Your task to perform on an android device: Search for "razer nari" on walmart.com, select the first entry, add it to the cart, then select checkout. Image 0: 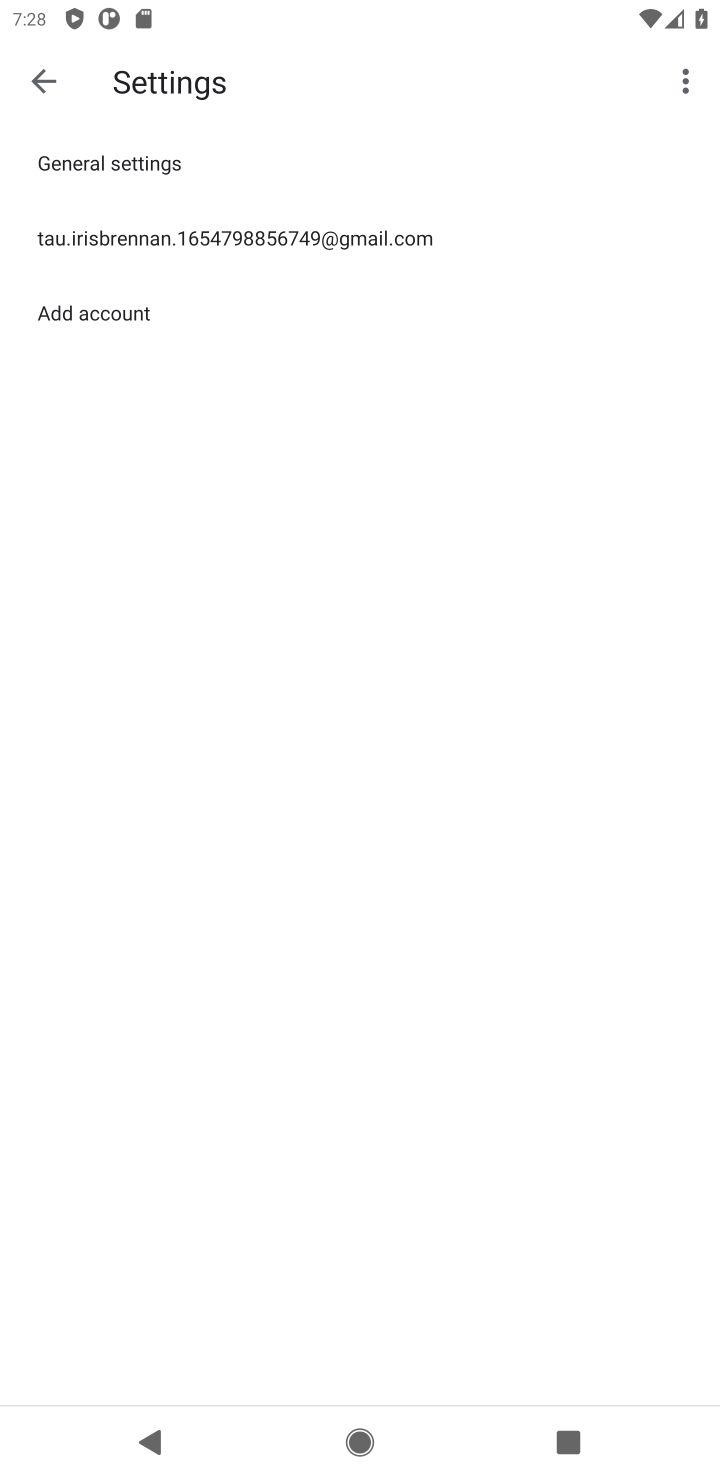
Step 0: press home button
Your task to perform on an android device: Search for "razer nari" on walmart.com, select the first entry, add it to the cart, then select checkout. Image 1: 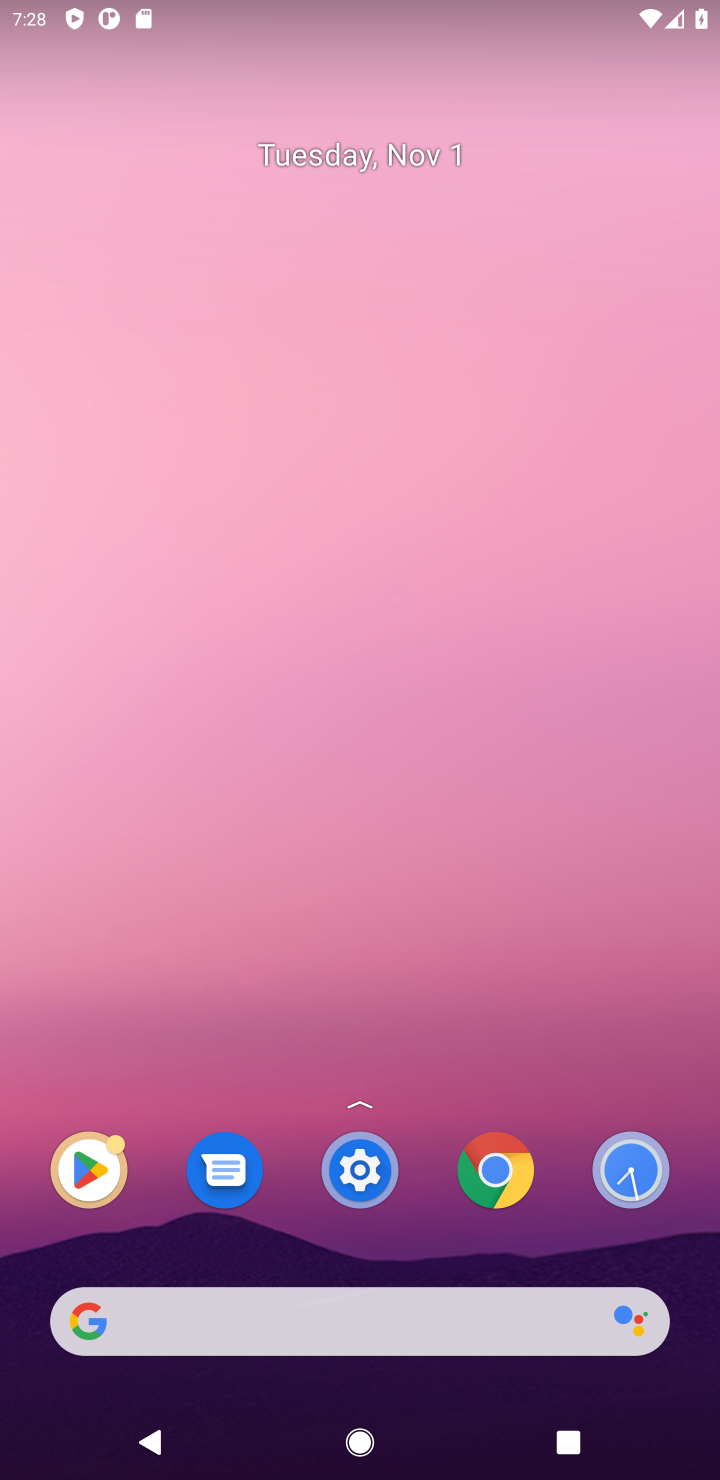
Step 1: click (505, 1192)
Your task to perform on an android device: Search for "razer nari" on walmart.com, select the first entry, add it to the cart, then select checkout. Image 2: 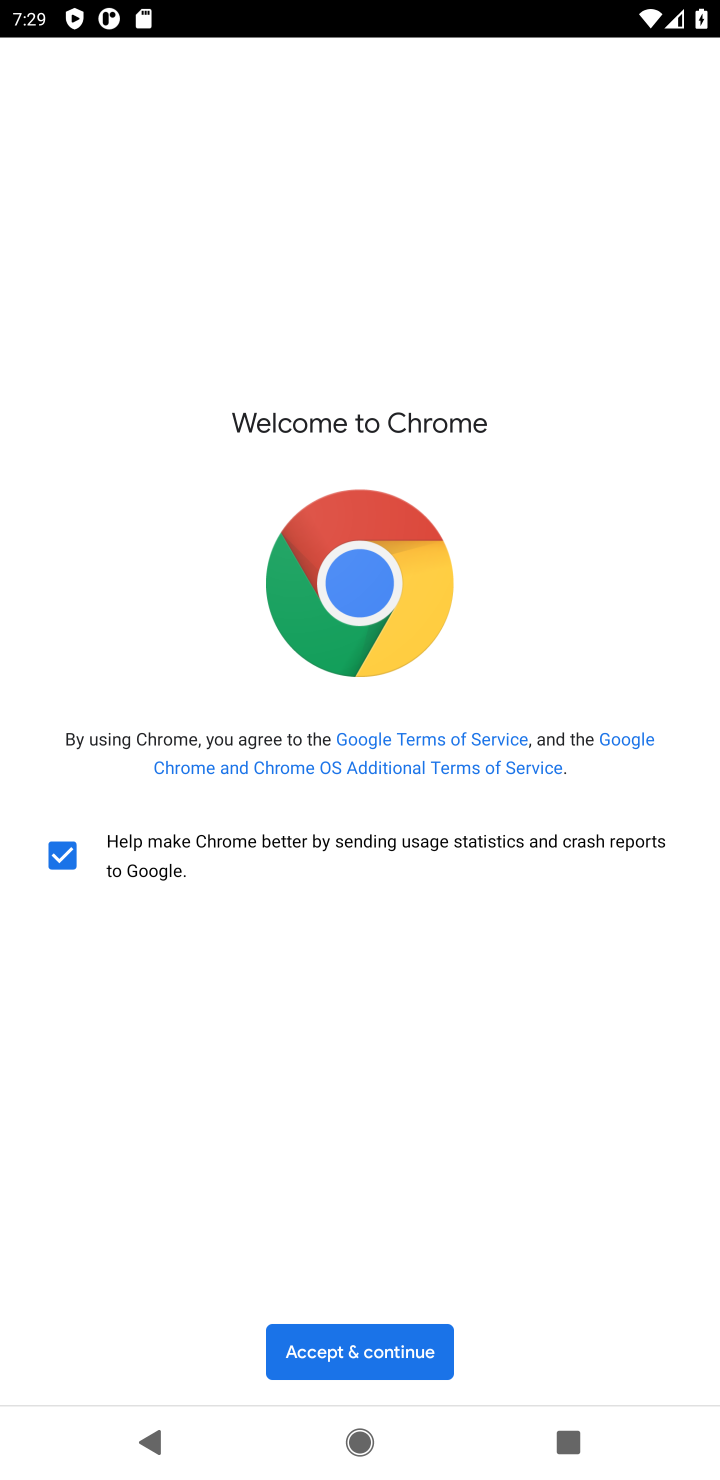
Step 2: click (344, 1351)
Your task to perform on an android device: Search for "razer nari" on walmart.com, select the first entry, add it to the cart, then select checkout. Image 3: 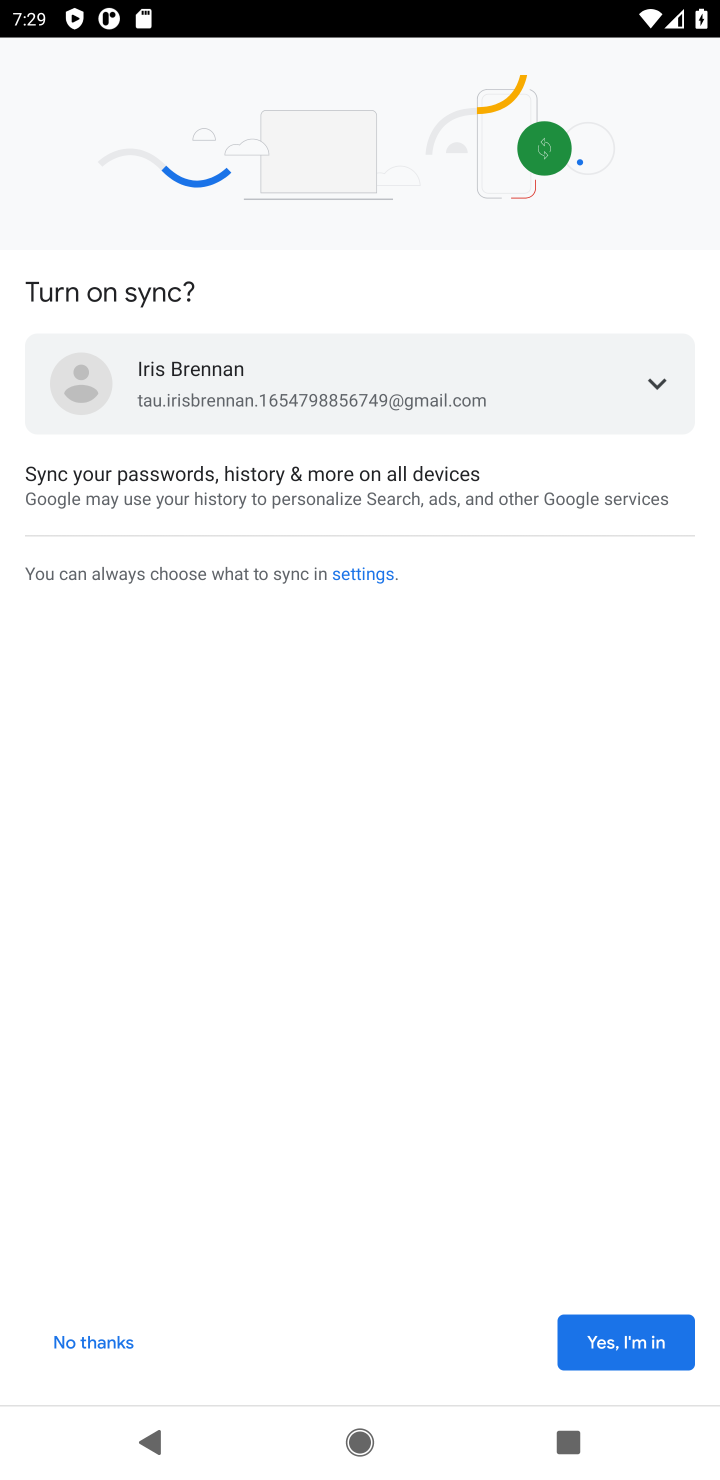
Step 3: click (622, 1349)
Your task to perform on an android device: Search for "razer nari" on walmart.com, select the first entry, add it to the cart, then select checkout. Image 4: 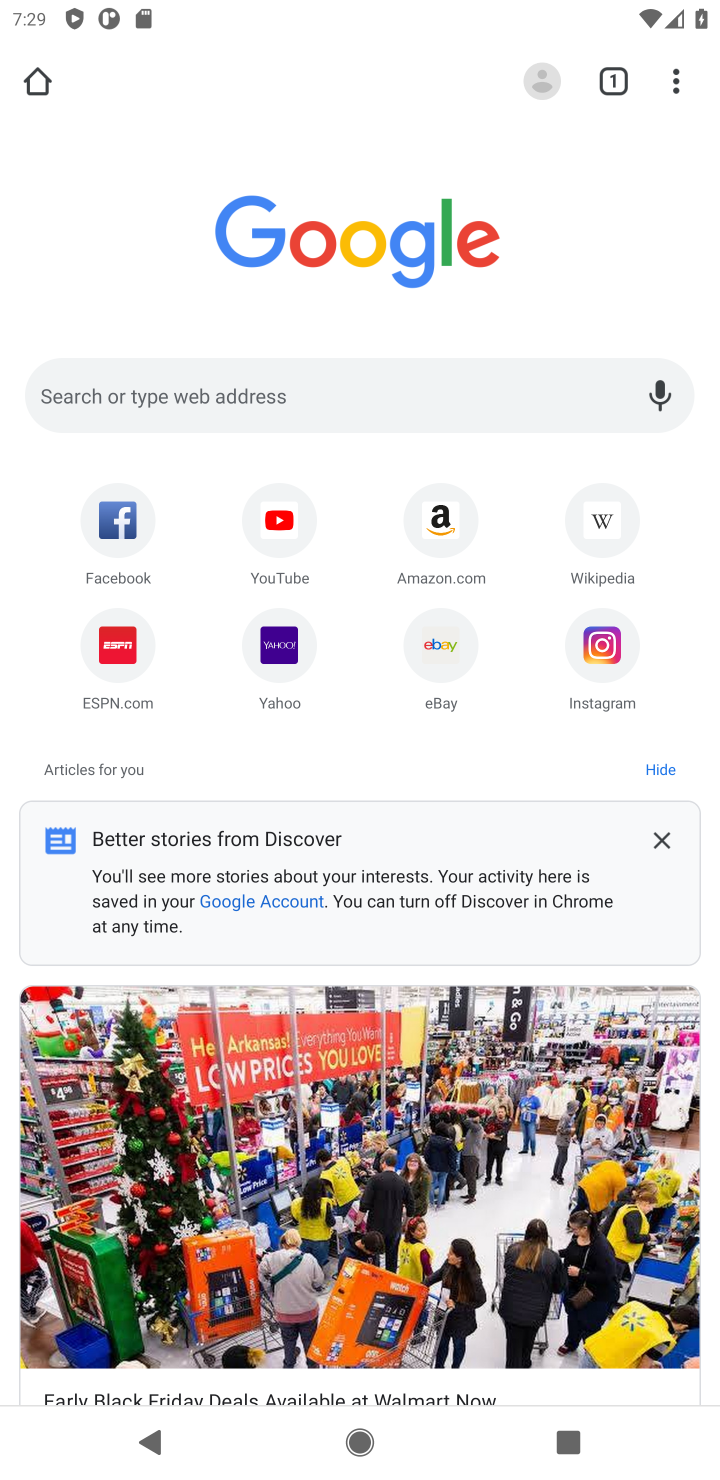
Step 4: click (248, 393)
Your task to perform on an android device: Search for "razer nari" on walmart.com, select the first entry, add it to the cart, then select checkout. Image 5: 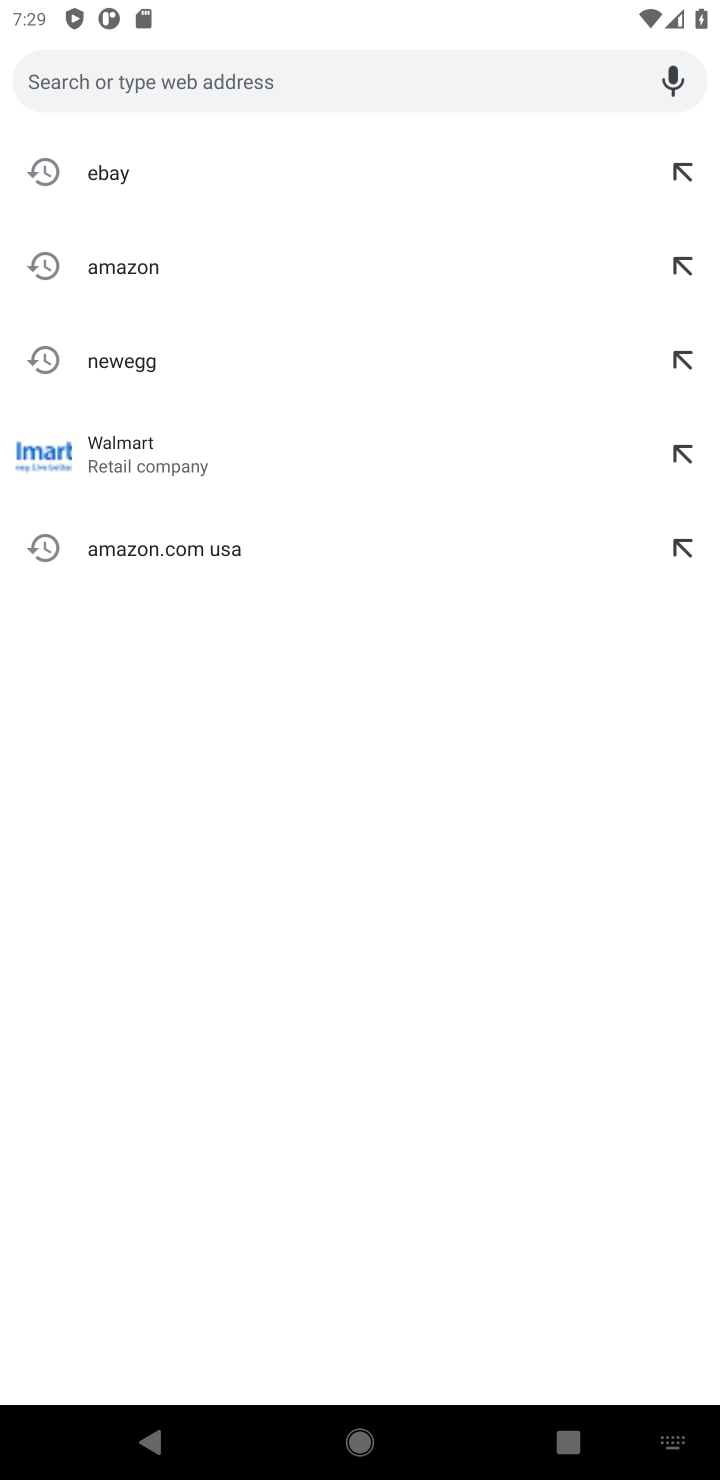
Step 5: type "walmart.com"
Your task to perform on an android device: Search for "razer nari" on walmart.com, select the first entry, add it to the cart, then select checkout. Image 6: 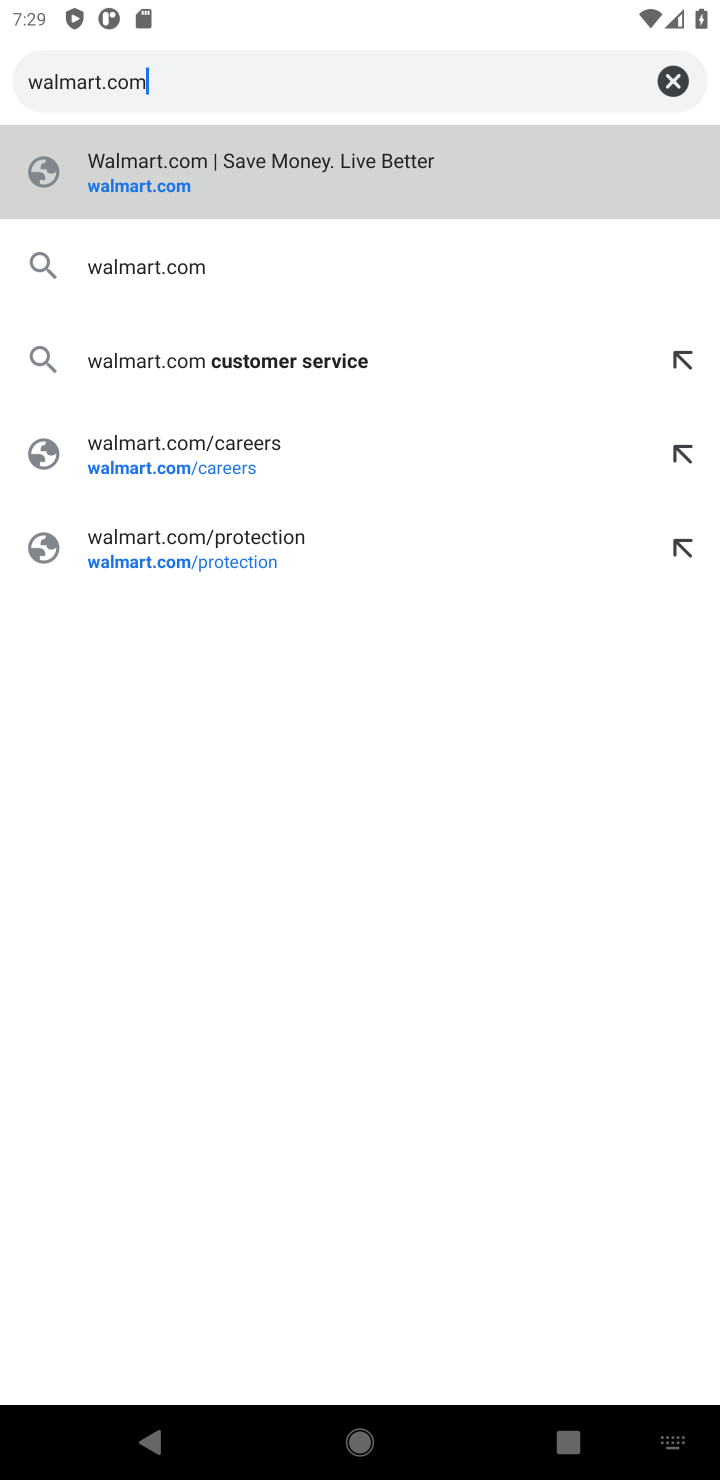
Step 6: press enter
Your task to perform on an android device: Search for "razer nari" on walmart.com, select the first entry, add it to the cart, then select checkout. Image 7: 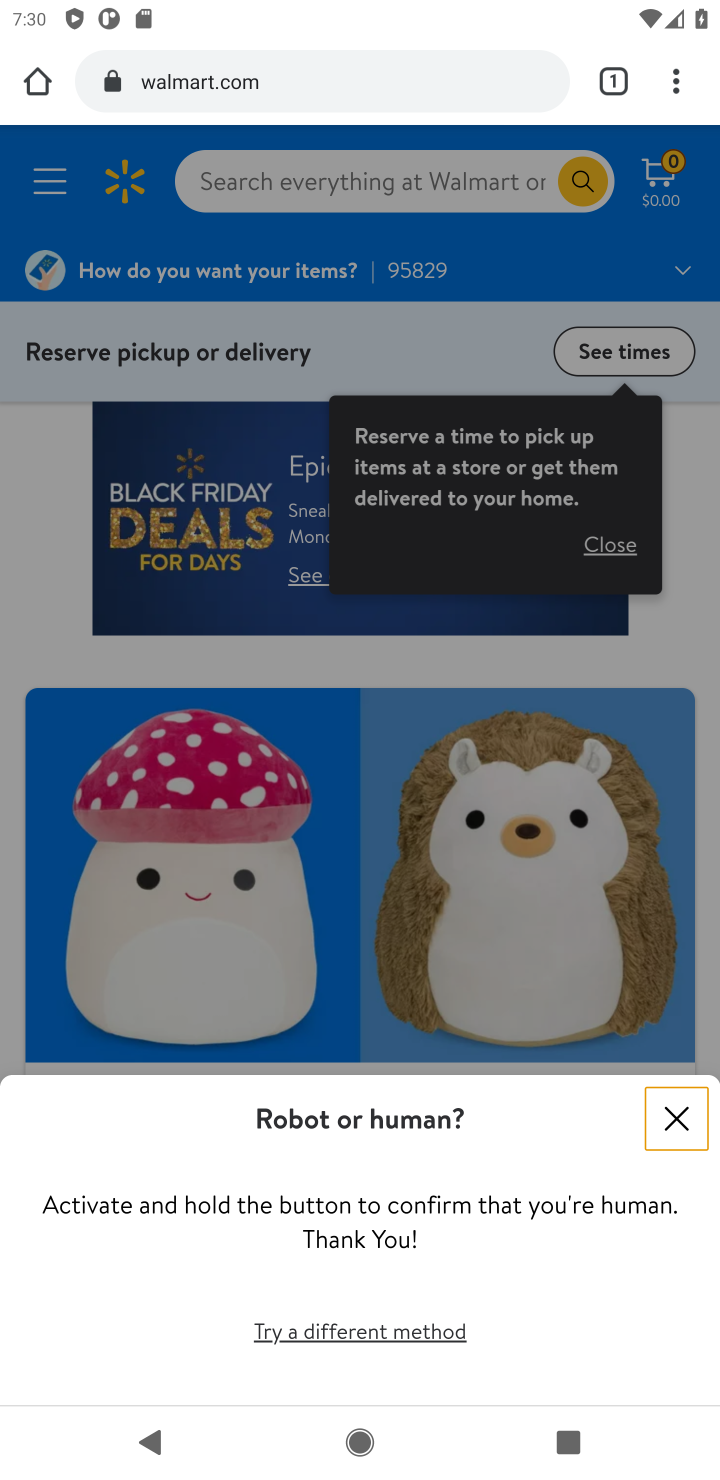
Step 7: click (674, 1144)
Your task to perform on an android device: Search for "razer nari" on walmart.com, select the first entry, add it to the cart, then select checkout. Image 8: 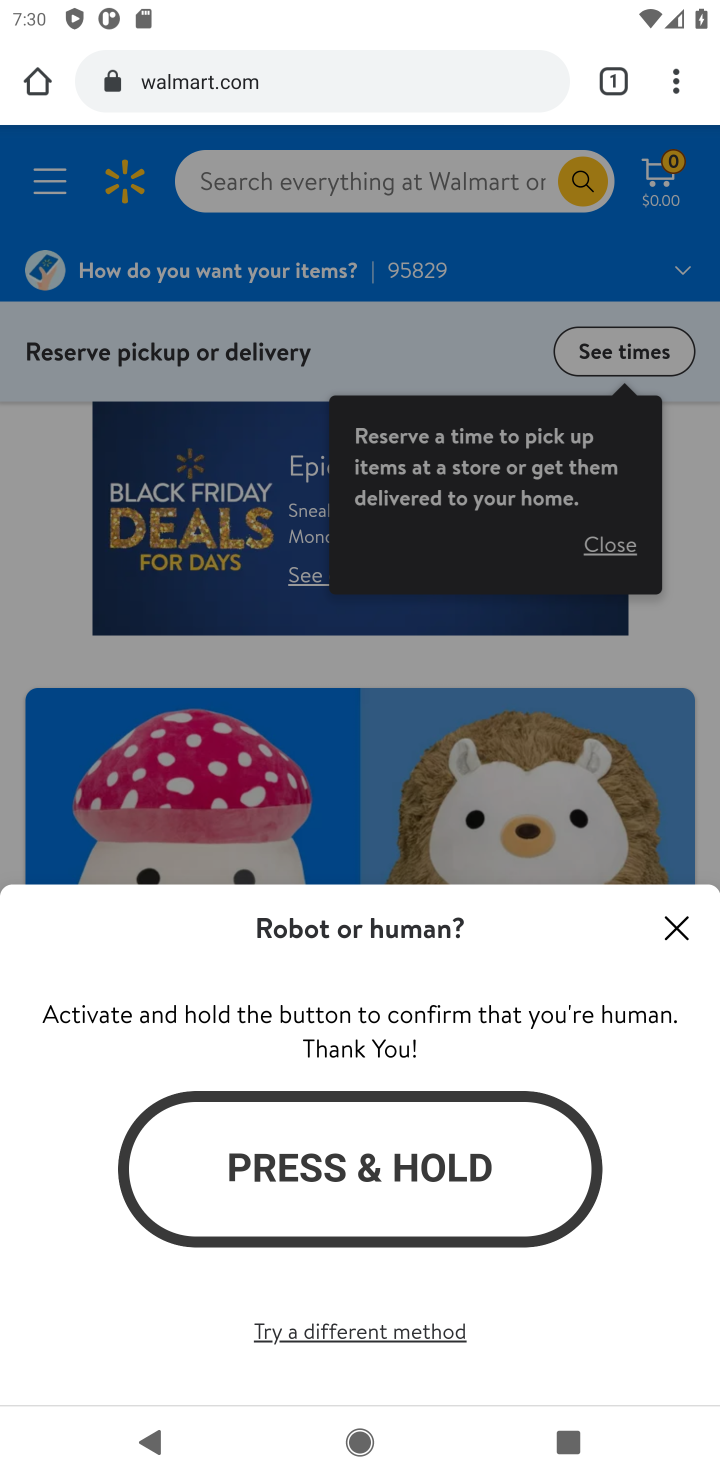
Step 8: click (411, 1165)
Your task to perform on an android device: Search for "razer nari" on walmart.com, select the first entry, add it to the cart, then select checkout. Image 9: 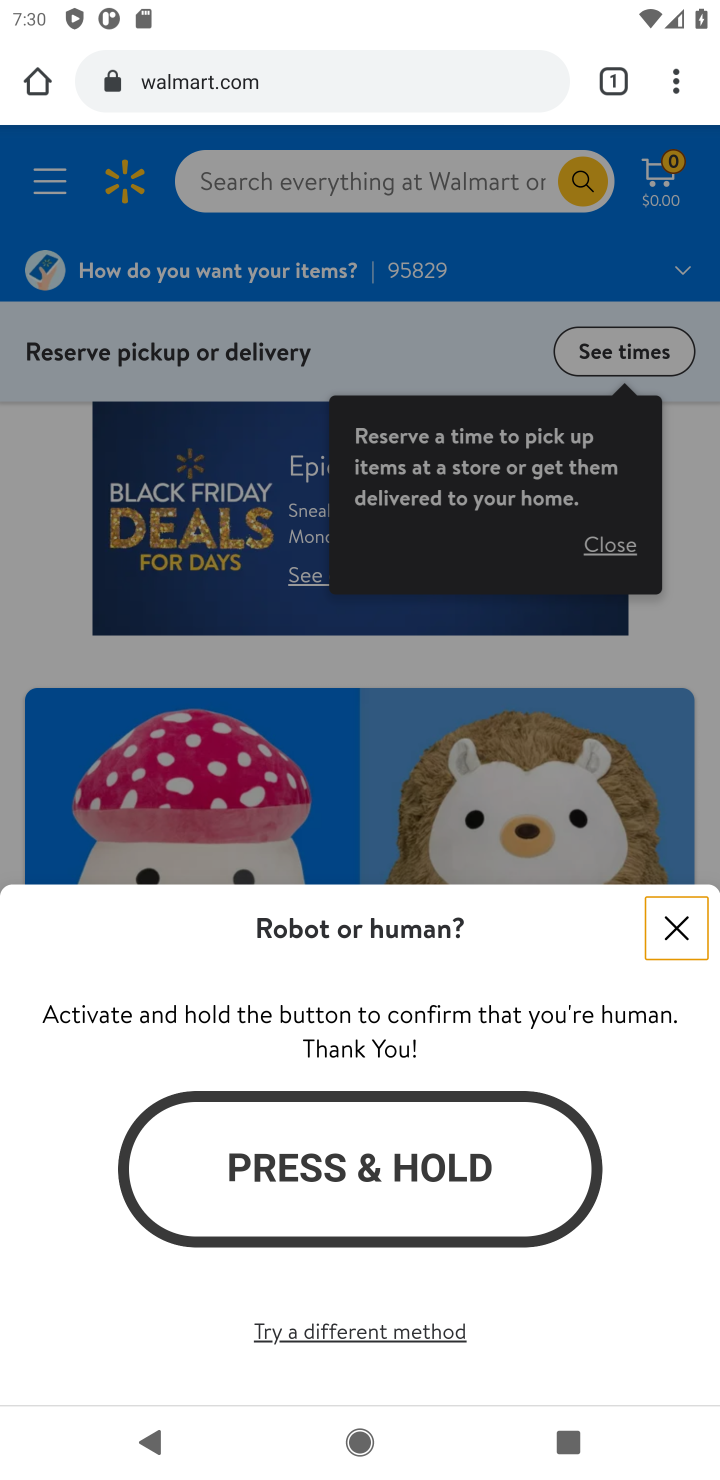
Step 9: click (380, 1337)
Your task to perform on an android device: Search for "razer nari" on walmart.com, select the first entry, add it to the cart, then select checkout. Image 10: 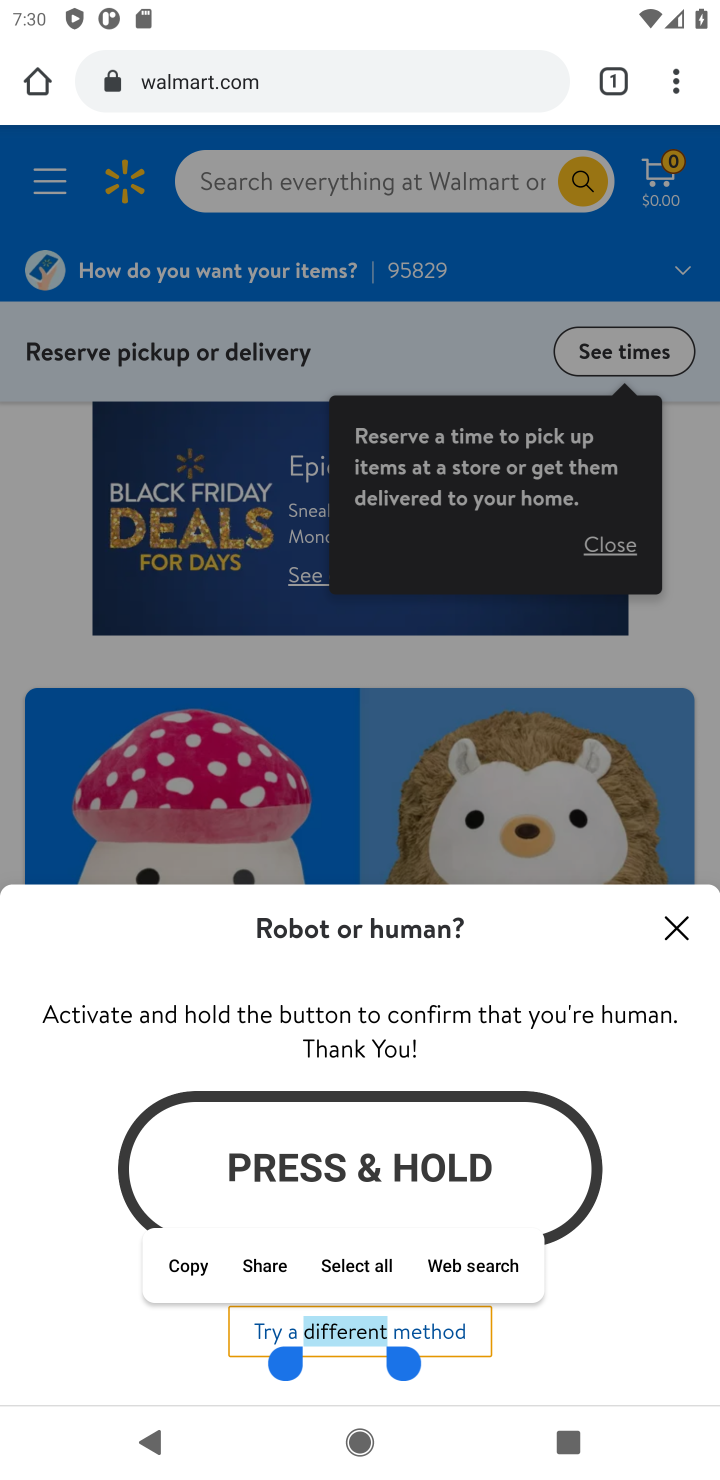
Step 10: click (682, 923)
Your task to perform on an android device: Search for "razer nari" on walmart.com, select the first entry, add it to the cart, then select checkout. Image 11: 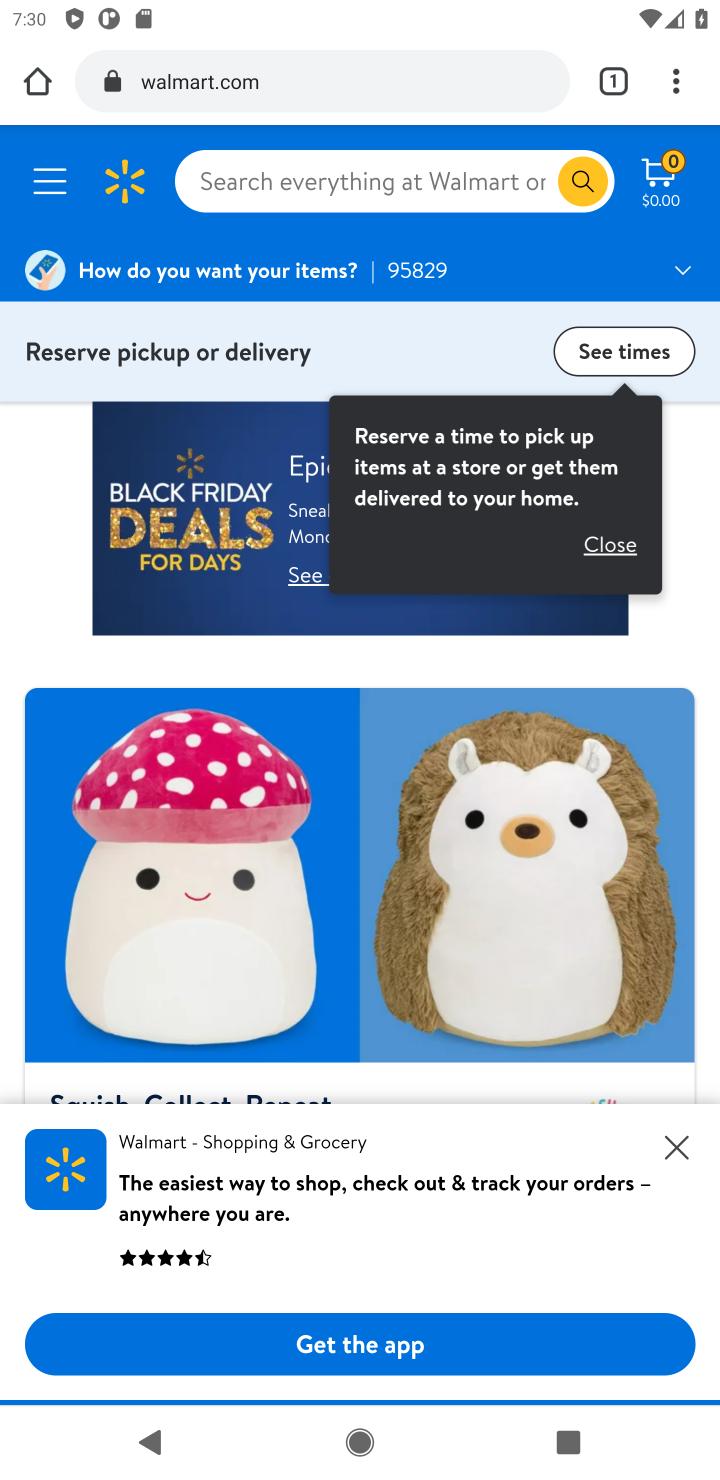
Step 11: click (357, 173)
Your task to perform on an android device: Search for "razer nari" on walmart.com, select the first entry, add it to the cart, then select checkout. Image 12: 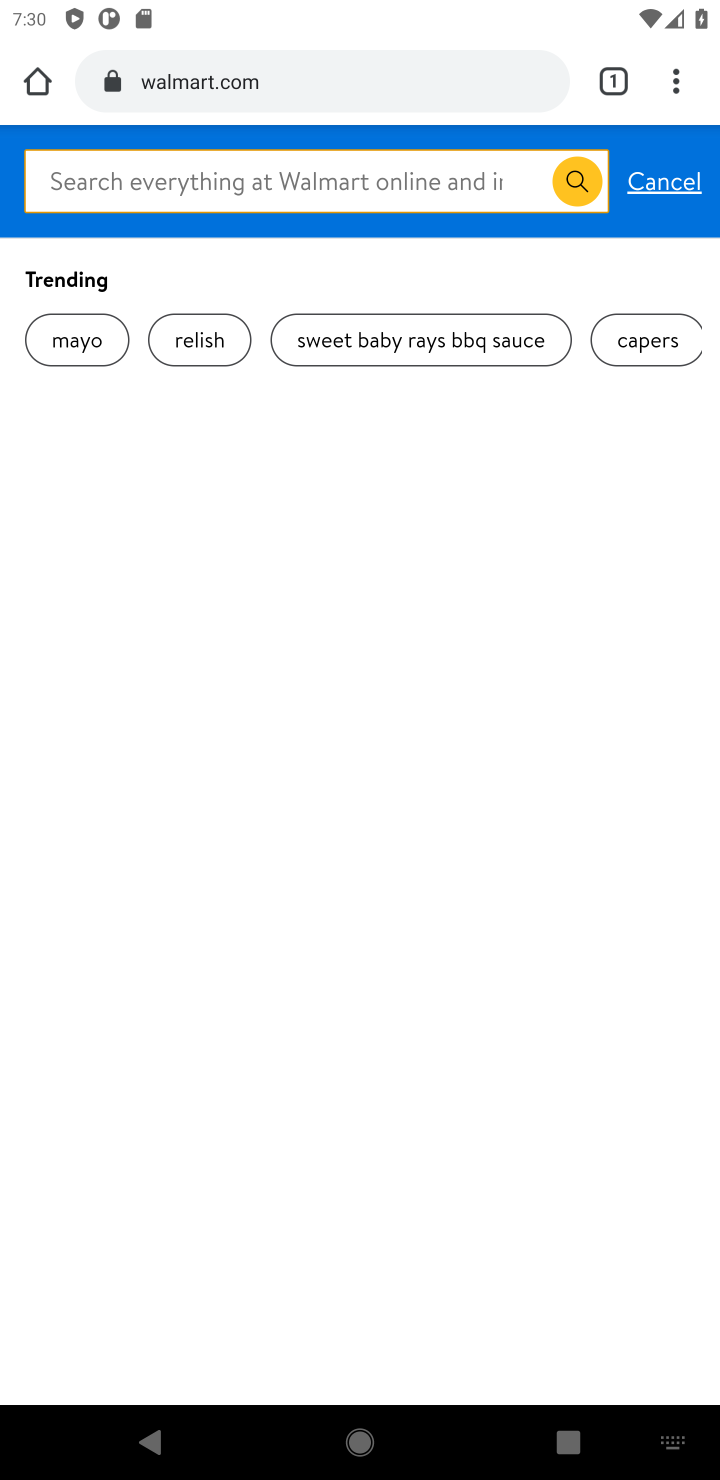
Step 12: type "razer nari"
Your task to perform on an android device: Search for "razer nari" on walmart.com, select the first entry, add it to the cart, then select checkout. Image 13: 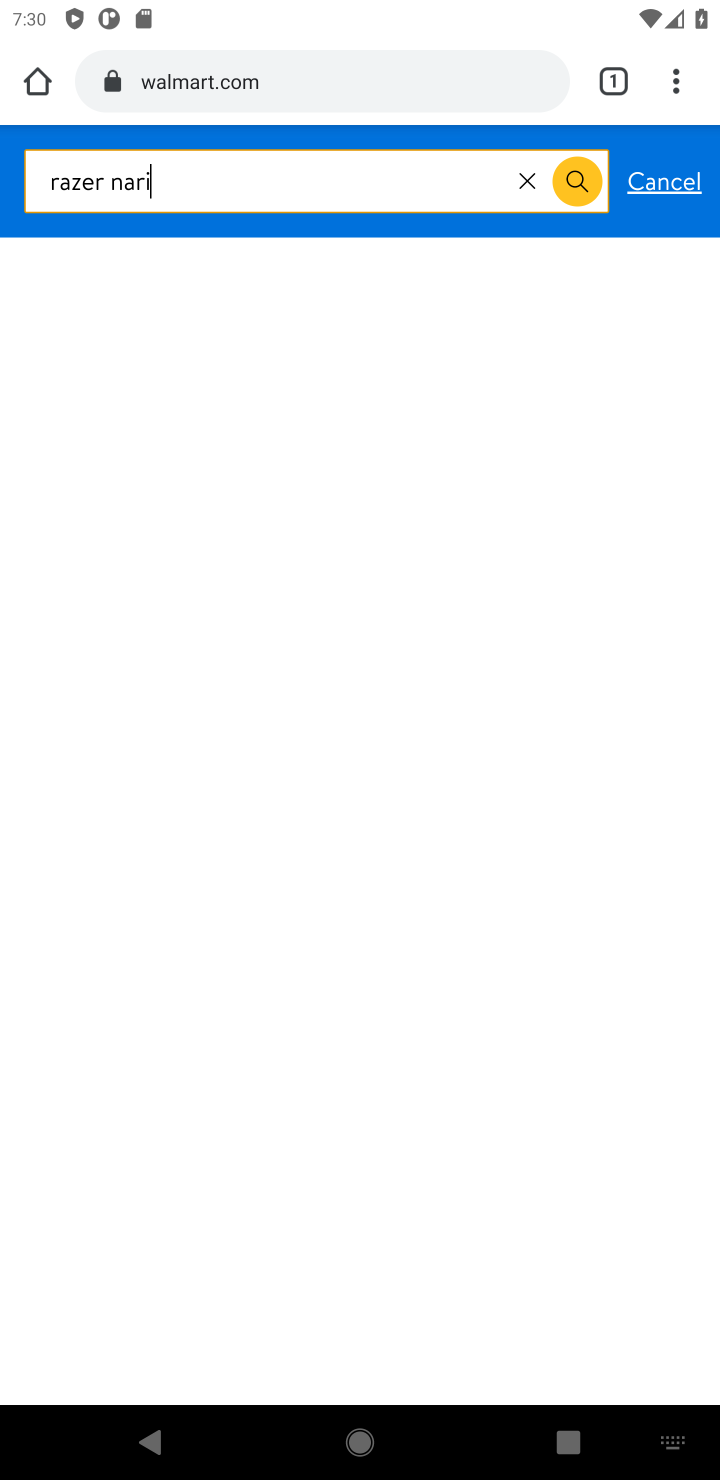
Step 13: type ""
Your task to perform on an android device: Search for "razer nari" on walmart.com, select the first entry, add it to the cart, then select checkout. Image 14: 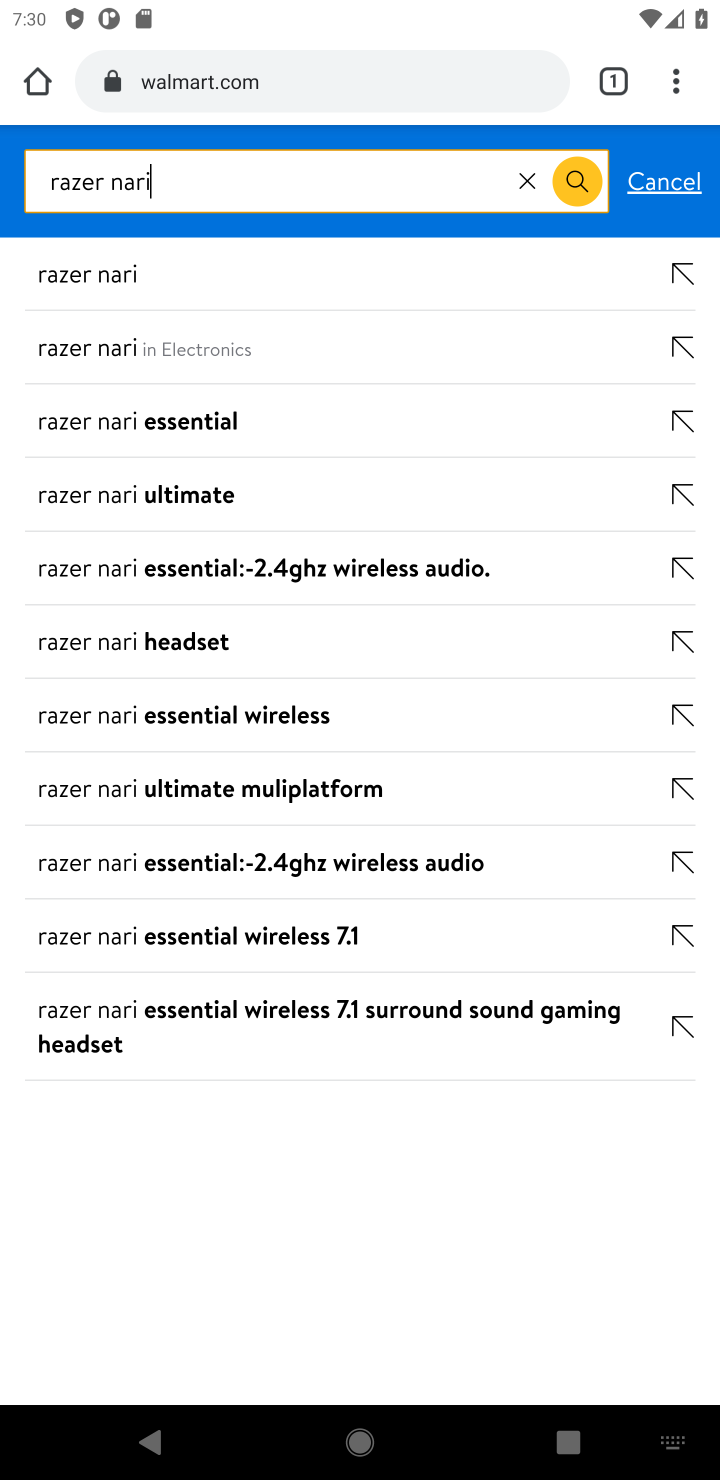
Step 14: press enter
Your task to perform on an android device: Search for "razer nari" on walmart.com, select the first entry, add it to the cart, then select checkout. Image 15: 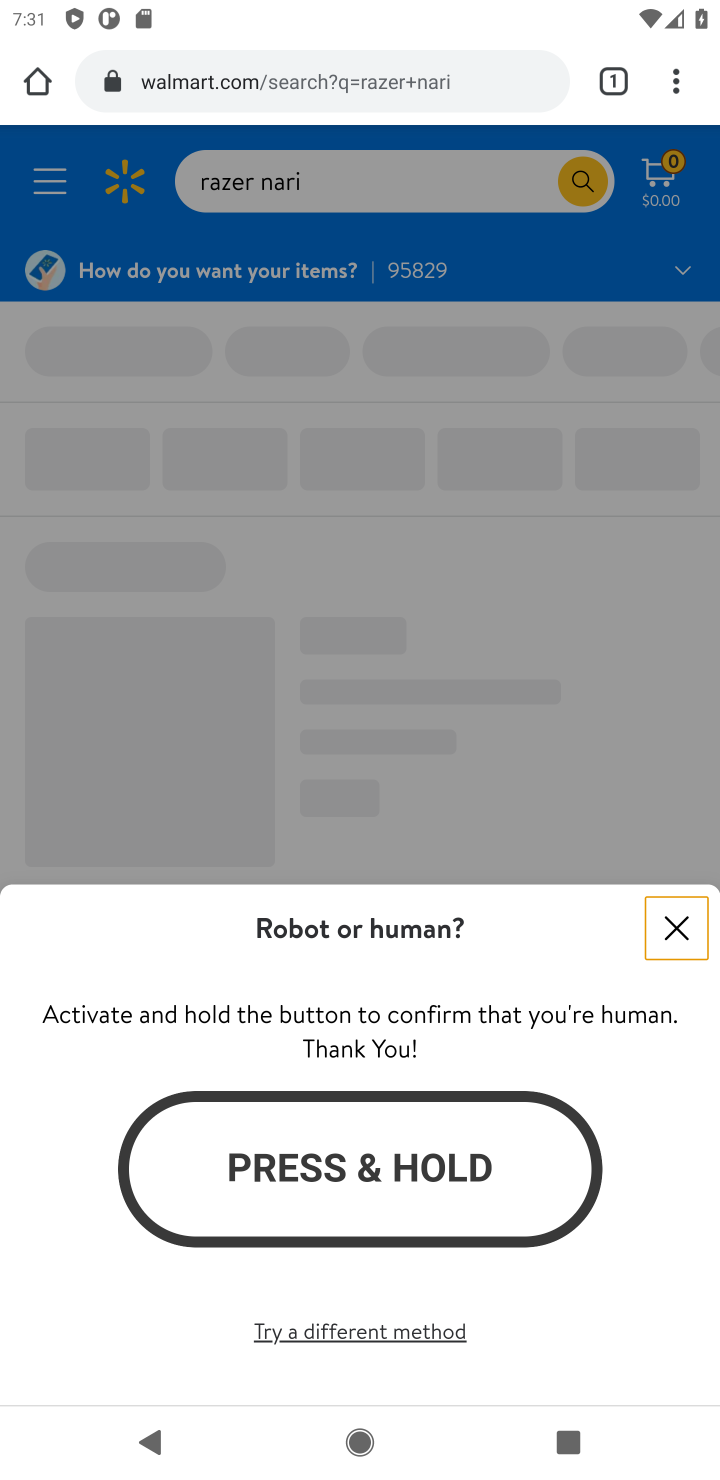
Step 15: click (669, 932)
Your task to perform on an android device: Search for "razer nari" on walmart.com, select the first entry, add it to the cart, then select checkout. Image 16: 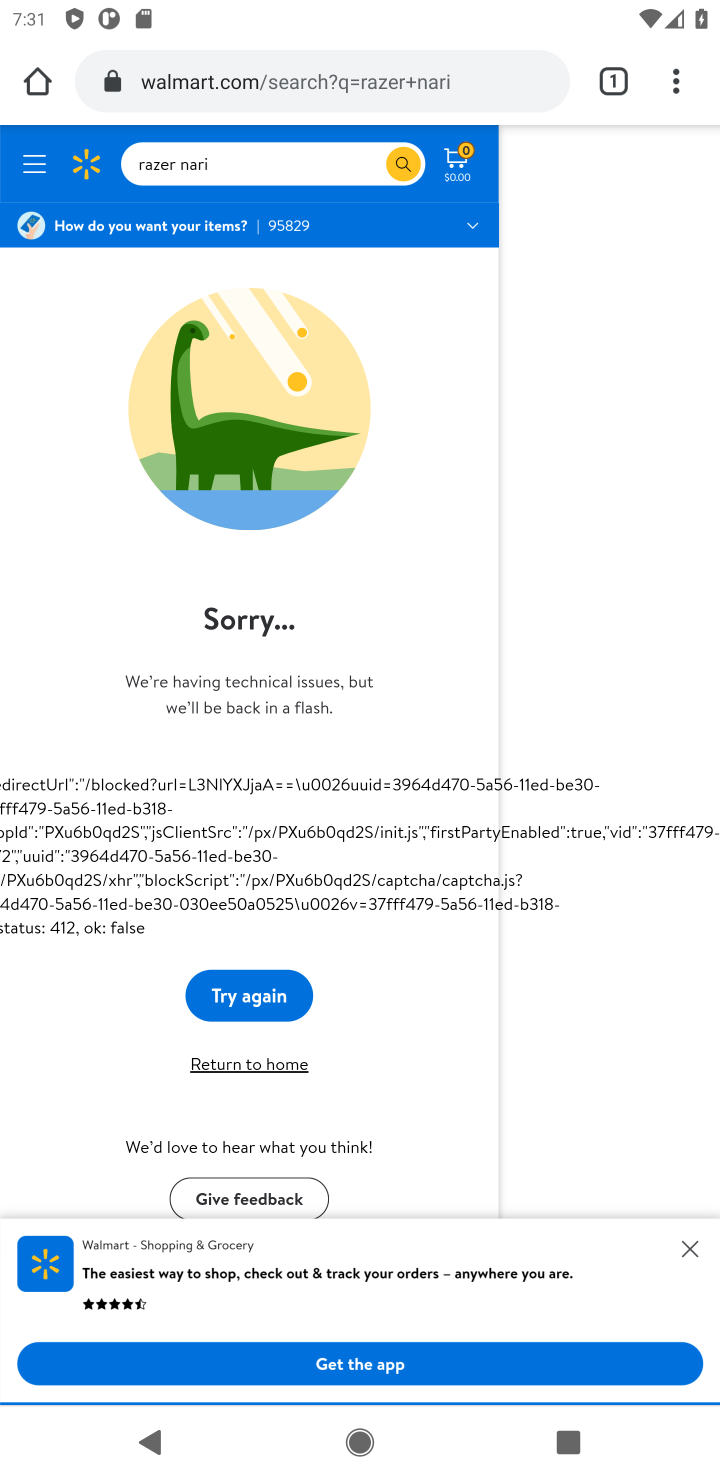
Step 16: press home button
Your task to perform on an android device: Search for "razer nari" on walmart.com, select the first entry, add it to the cart, then select checkout. Image 17: 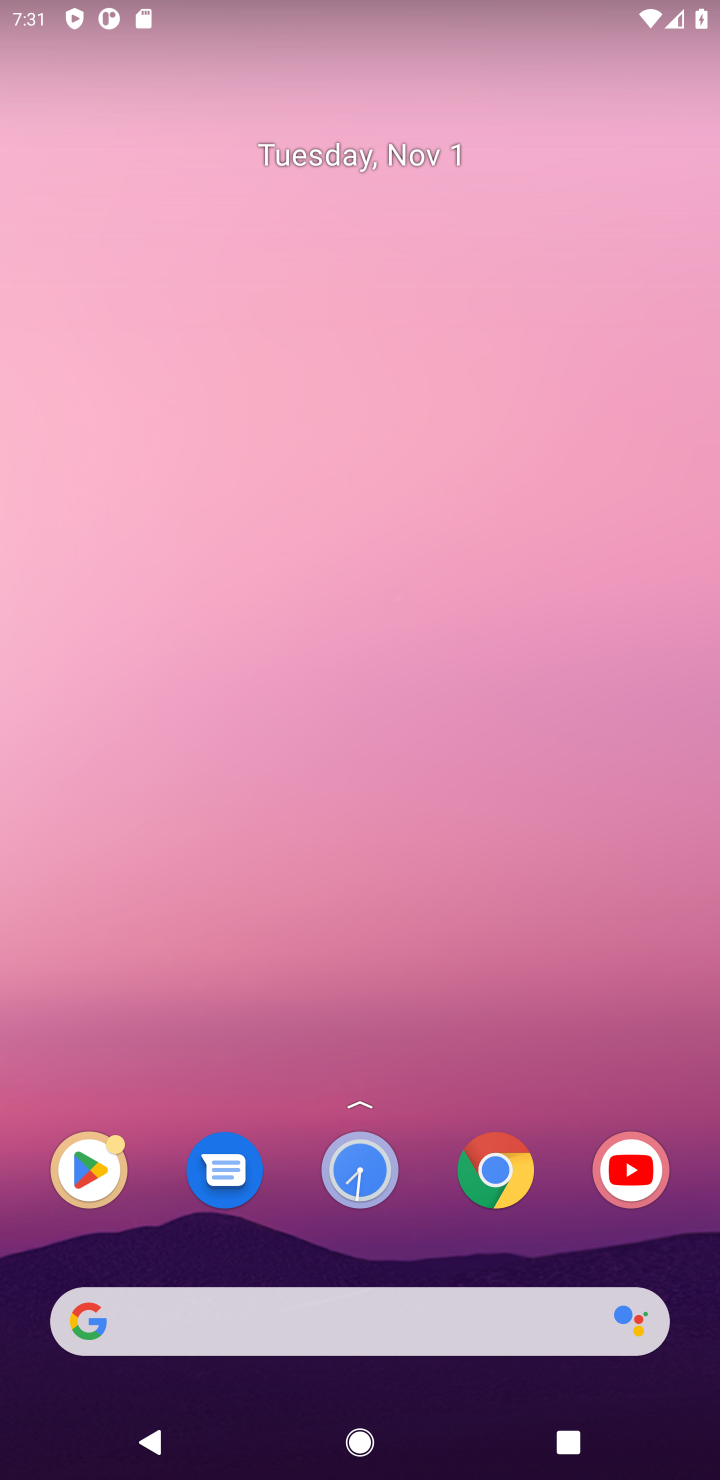
Step 17: click (493, 1167)
Your task to perform on an android device: Search for "razer nari" on walmart.com, select the first entry, add it to the cart, then select checkout. Image 18: 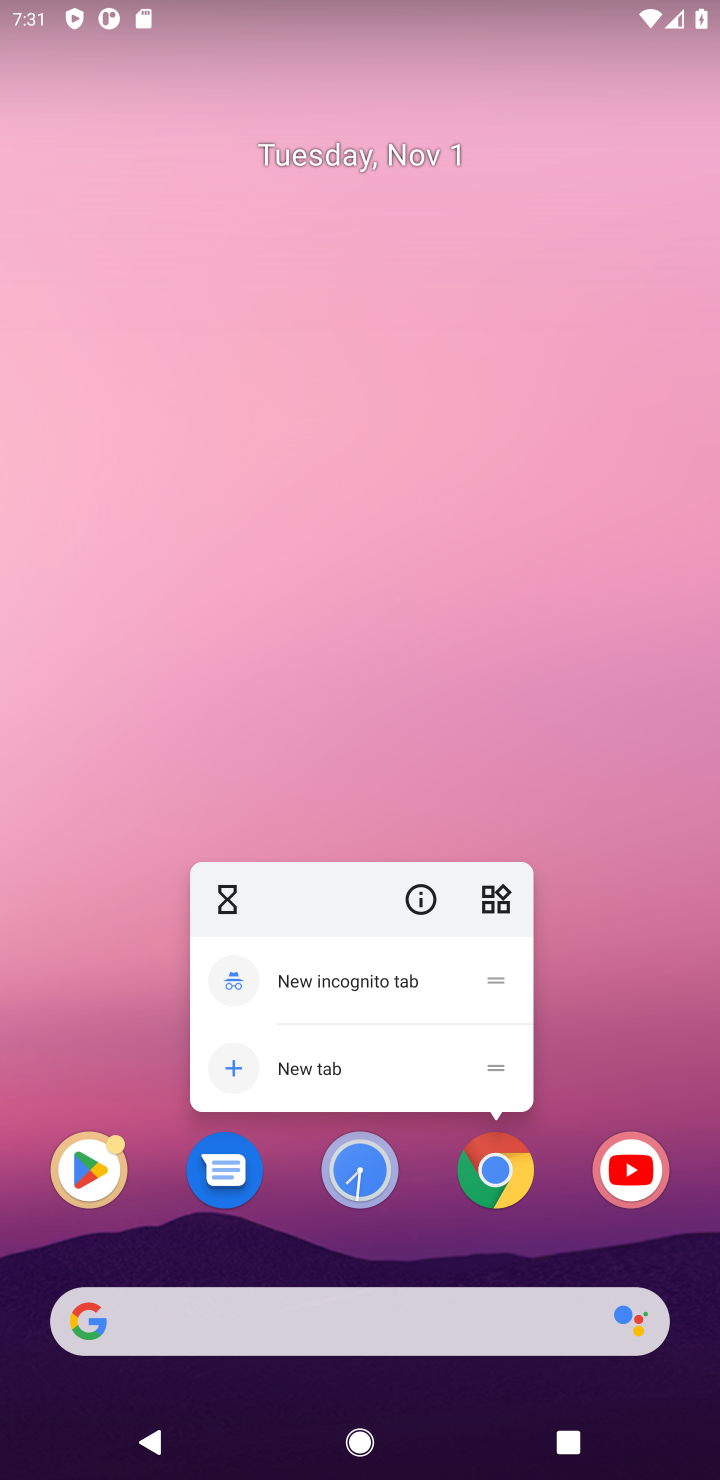
Step 18: click (515, 1198)
Your task to perform on an android device: Search for "razer nari" on walmart.com, select the first entry, add it to the cart, then select checkout. Image 19: 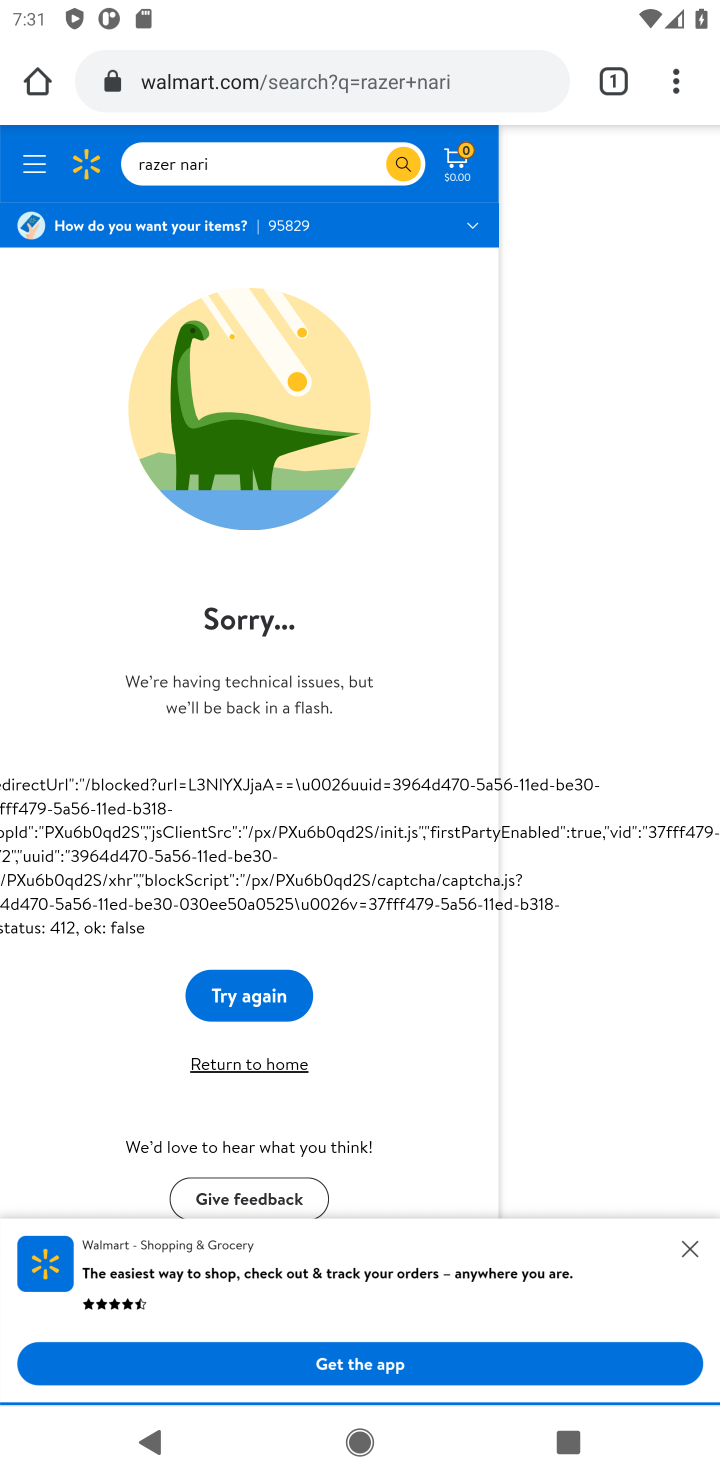
Step 19: click (331, 61)
Your task to perform on an android device: Search for "razer nari" on walmart.com, select the first entry, add it to the cart, then select checkout. Image 20: 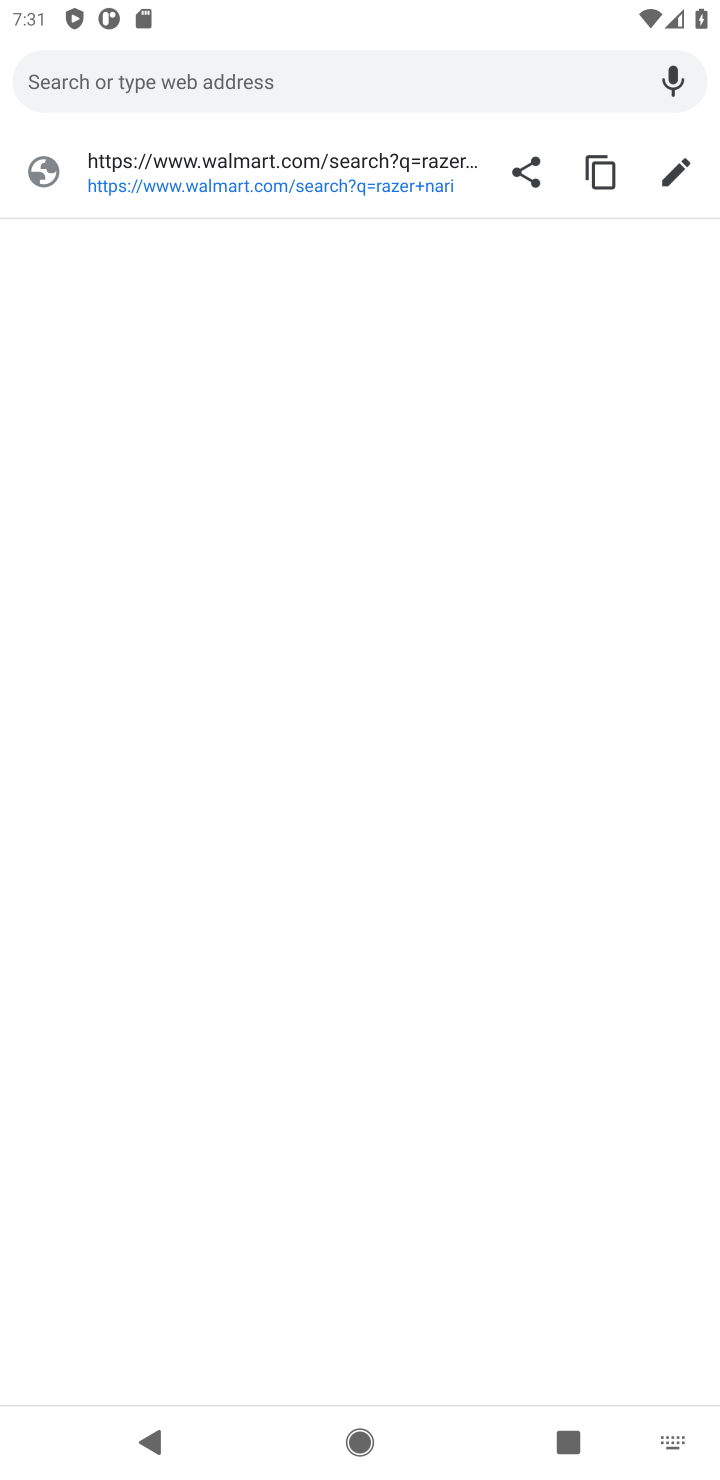
Step 20: click (340, 70)
Your task to perform on an android device: Search for "razer nari" on walmart.com, select the first entry, add it to the cart, then select checkout. Image 21: 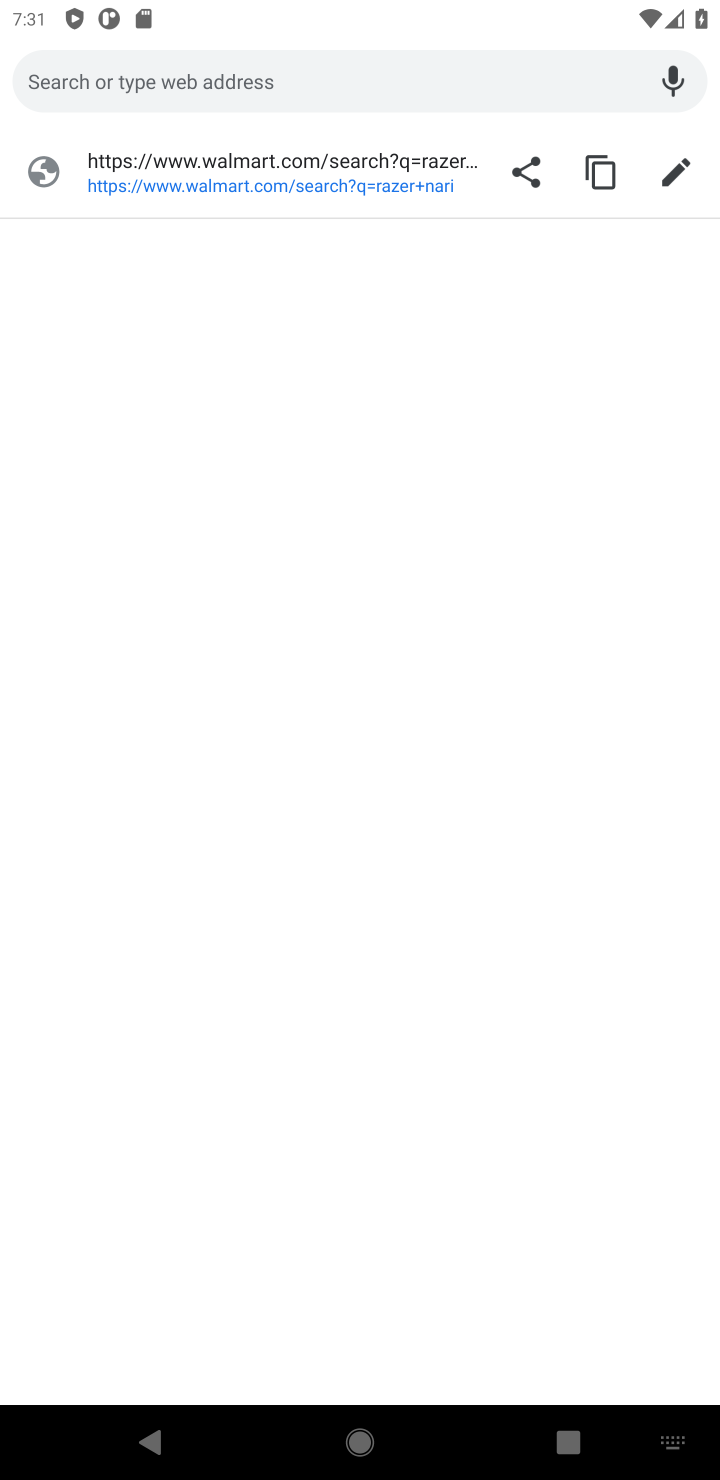
Step 21: type "walmart.com"
Your task to perform on an android device: Search for "razer nari" on walmart.com, select the first entry, add it to the cart, then select checkout. Image 22: 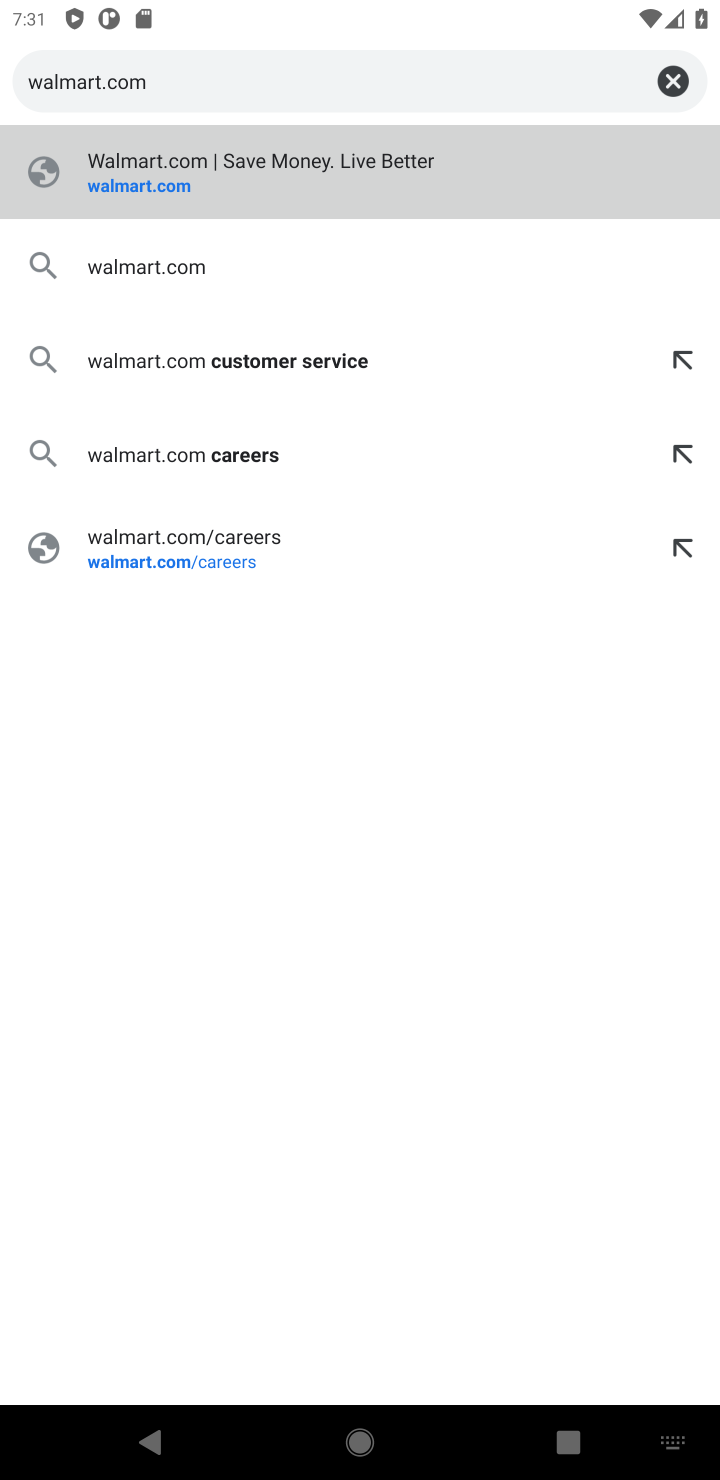
Step 22: press enter
Your task to perform on an android device: Search for "razer nari" on walmart.com, select the first entry, add it to the cart, then select checkout. Image 23: 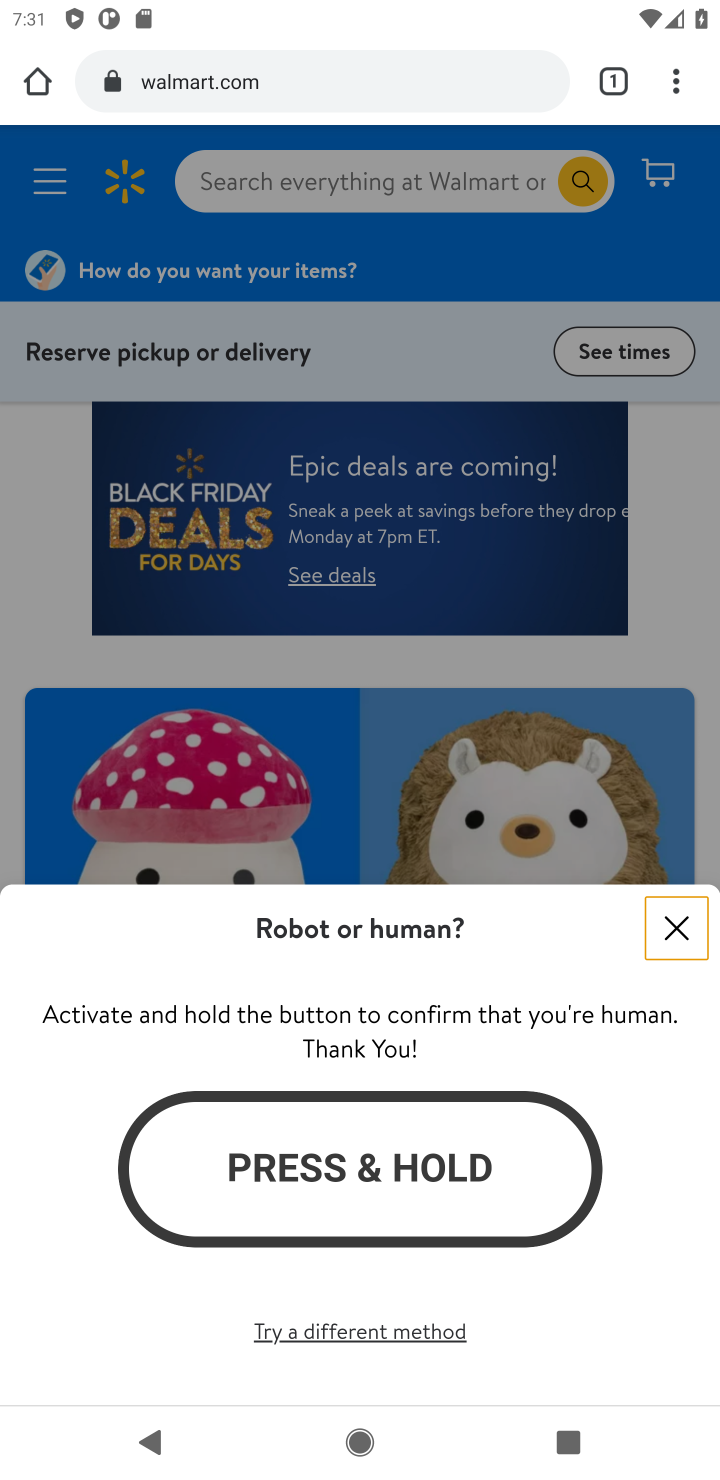
Step 23: click (280, 1331)
Your task to perform on an android device: Search for "razer nari" on walmart.com, select the first entry, add it to the cart, then select checkout. Image 24: 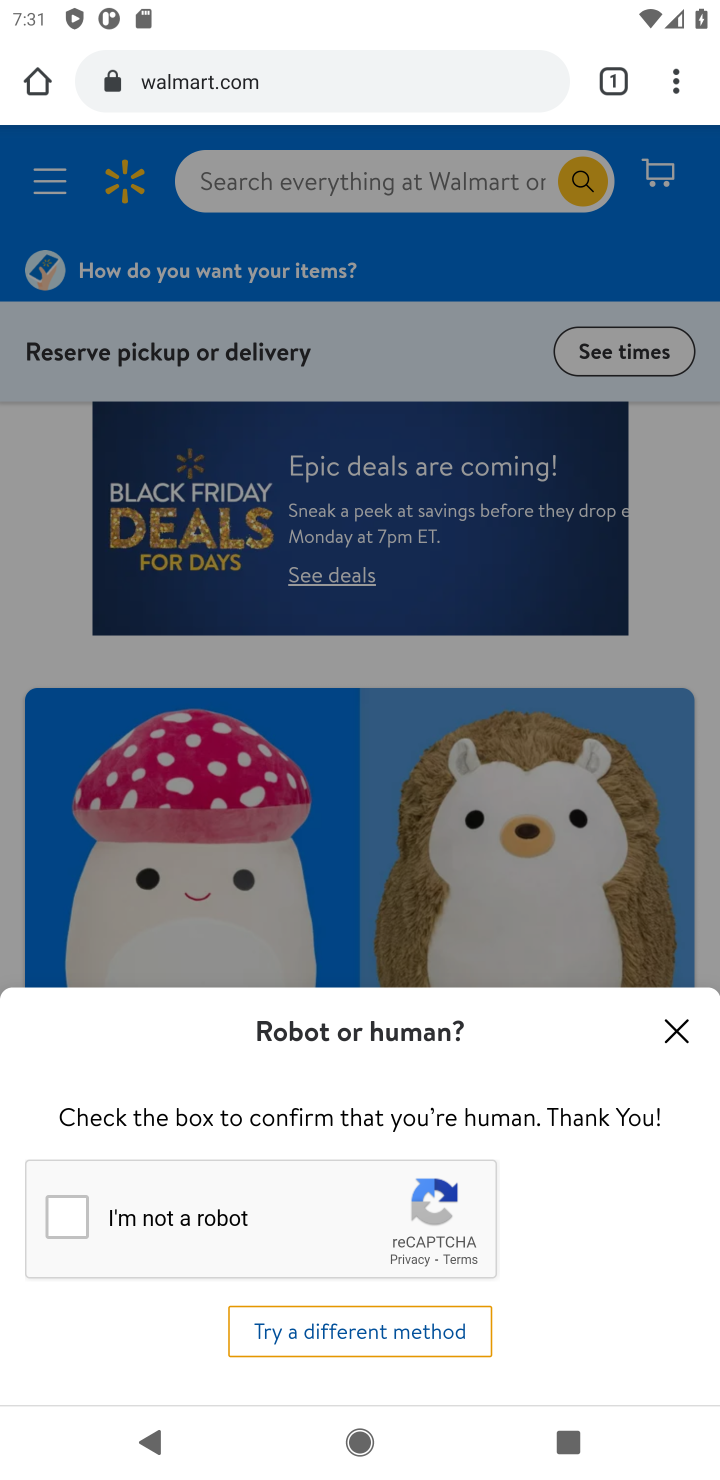
Step 24: click (73, 1226)
Your task to perform on an android device: Search for "razer nari" on walmart.com, select the first entry, add it to the cart, then select checkout. Image 25: 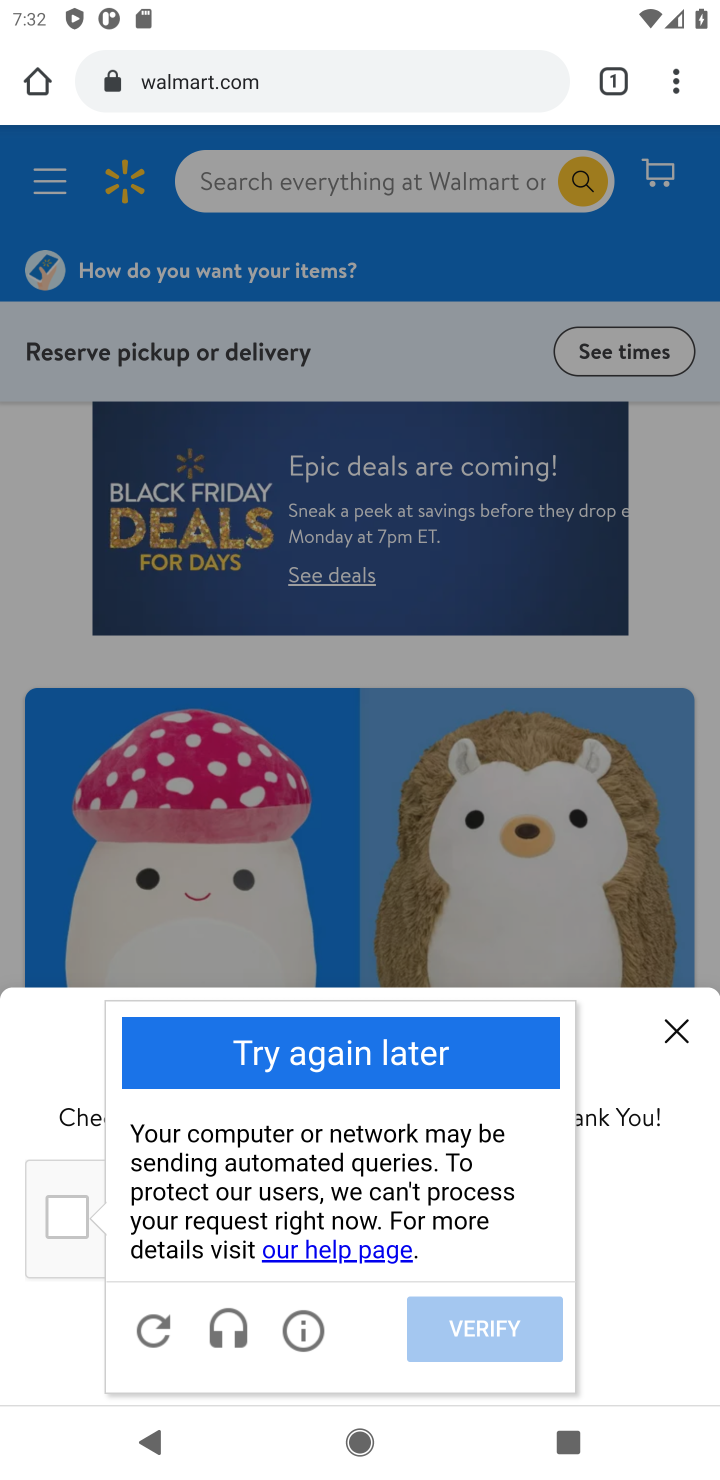
Step 25: click (175, 1341)
Your task to perform on an android device: Search for "razer nari" on walmart.com, select the first entry, add it to the cart, then select checkout. Image 26: 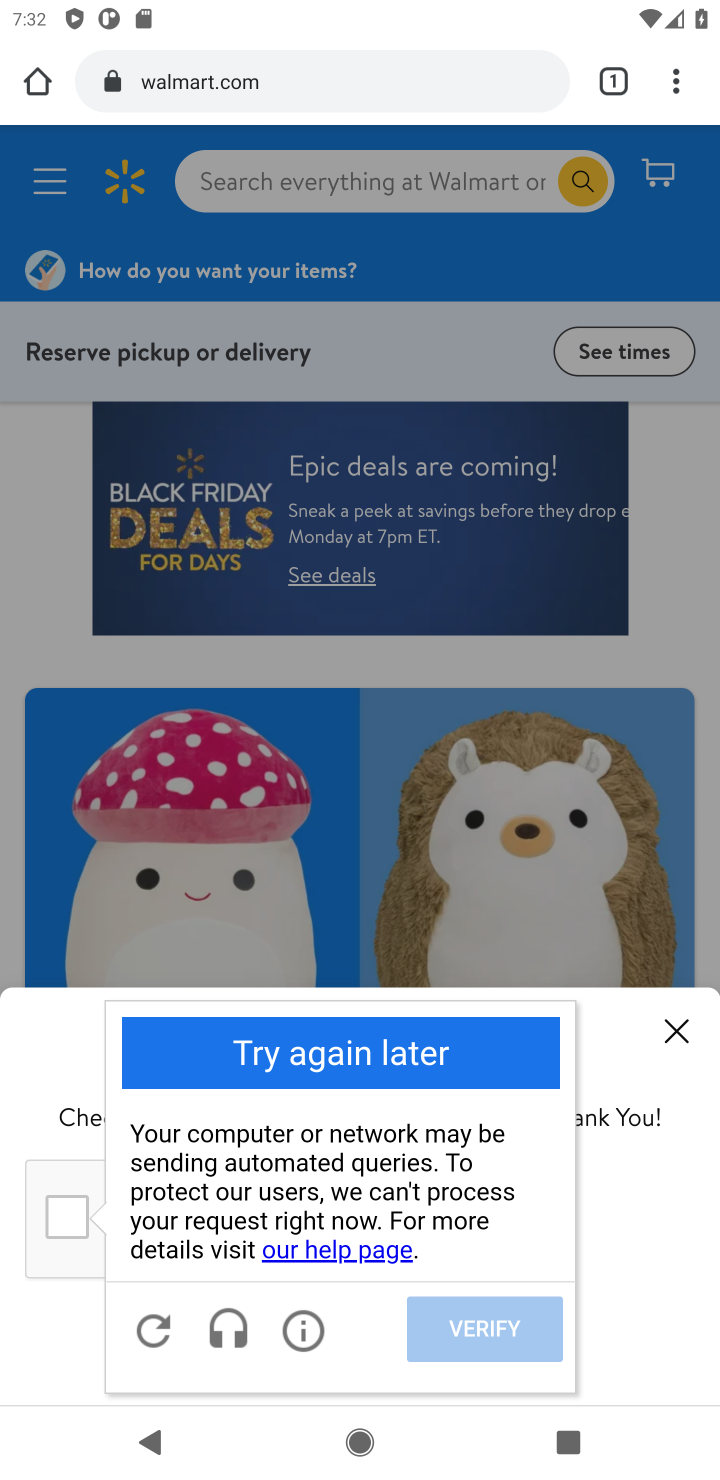
Step 26: click (149, 1344)
Your task to perform on an android device: Search for "razer nari" on walmart.com, select the first entry, add it to the cart, then select checkout. Image 27: 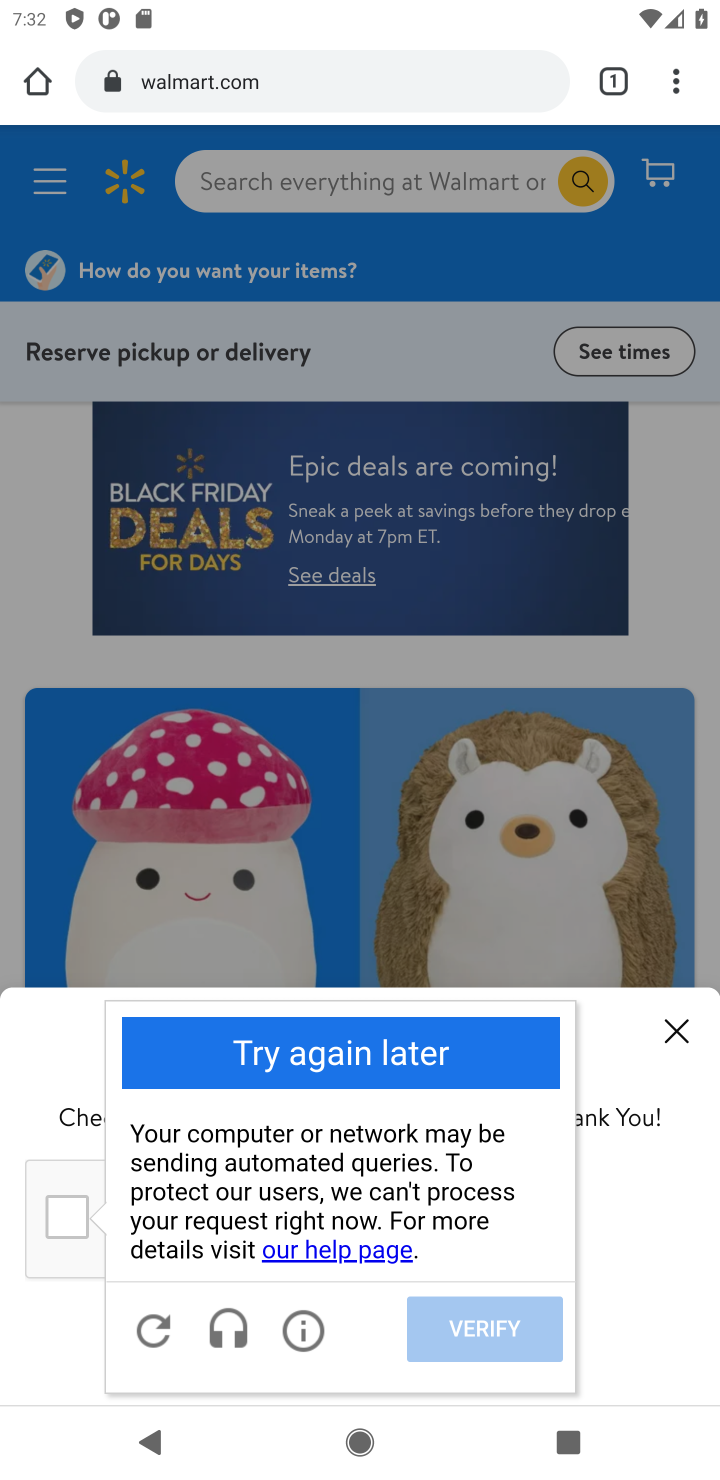
Step 27: click (667, 1072)
Your task to perform on an android device: Search for "razer nari" on walmart.com, select the first entry, add it to the cart, then select checkout. Image 28: 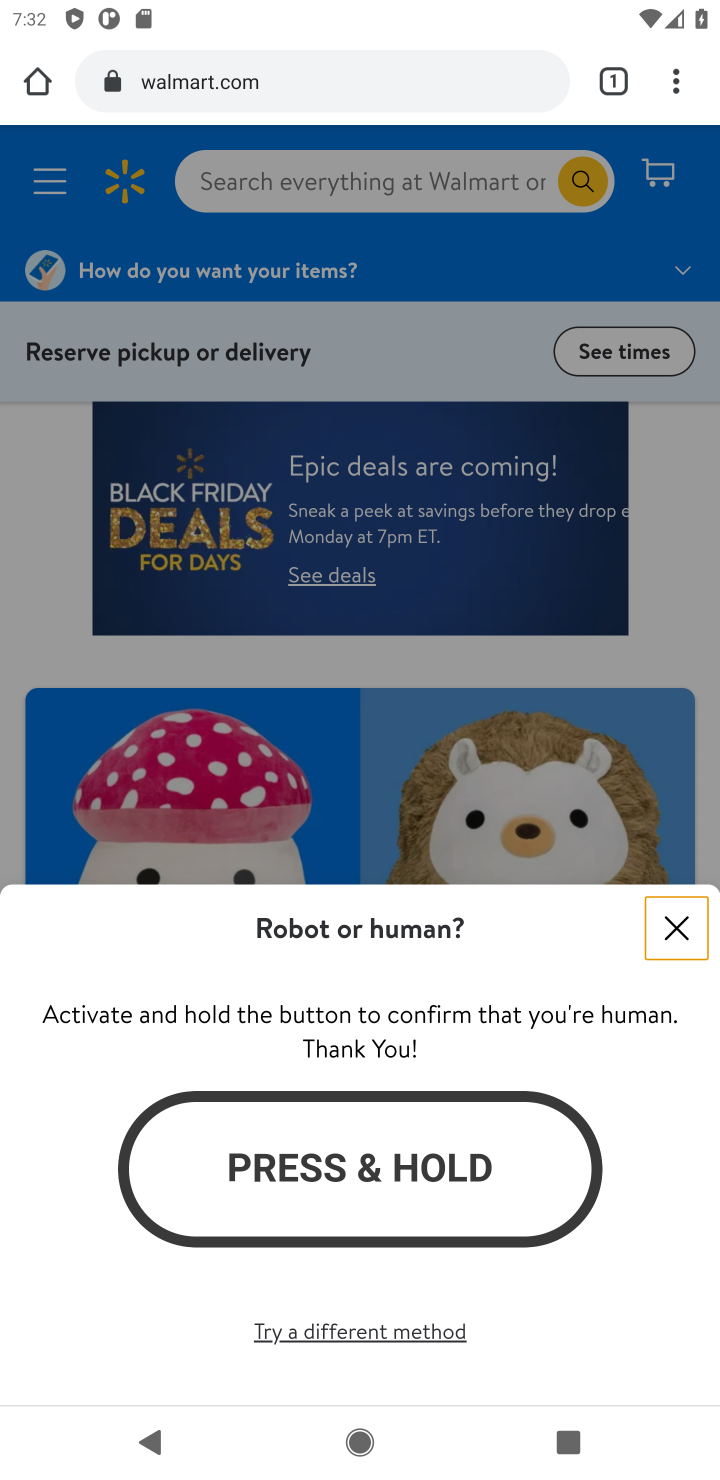
Step 28: click (381, 1328)
Your task to perform on an android device: Search for "razer nari" on walmart.com, select the first entry, add it to the cart, then select checkout. Image 29: 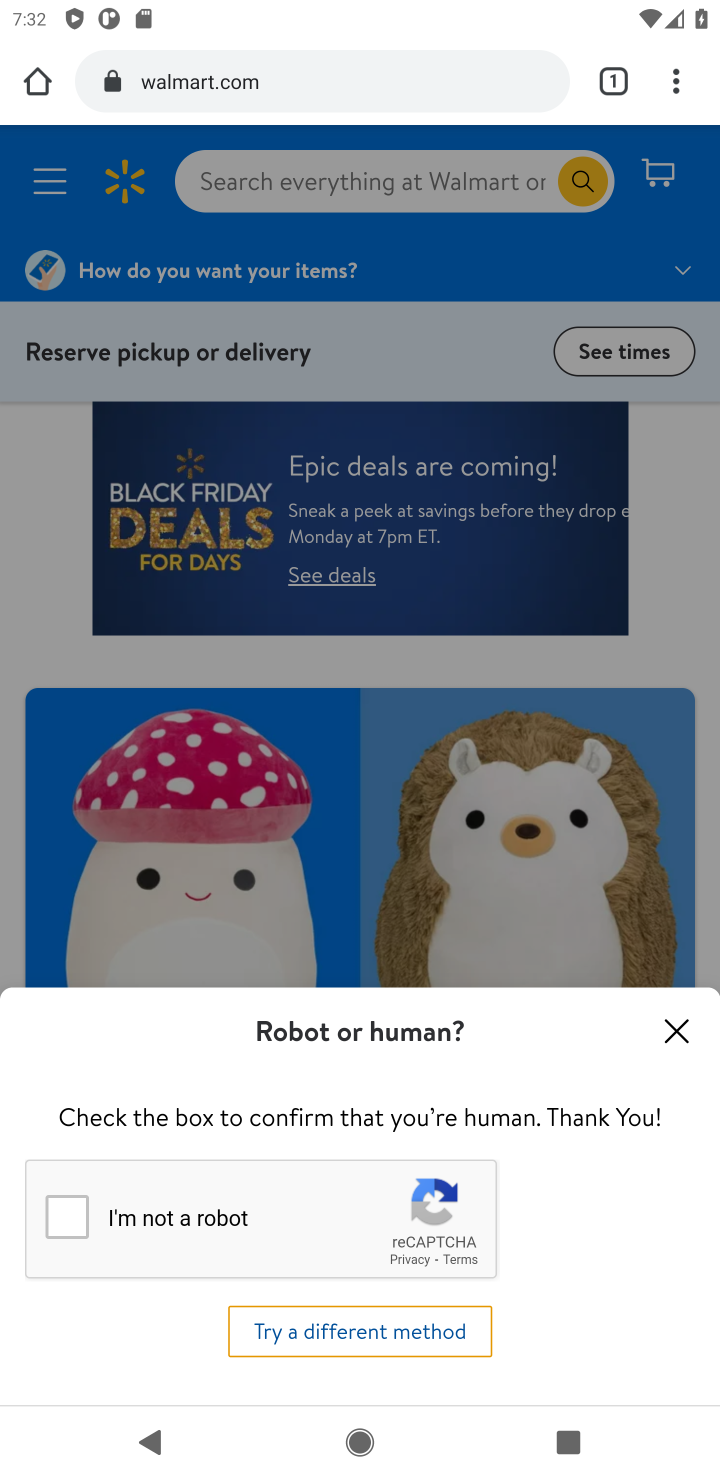
Step 29: click (69, 1213)
Your task to perform on an android device: Search for "razer nari" on walmart.com, select the first entry, add it to the cart, then select checkout. Image 30: 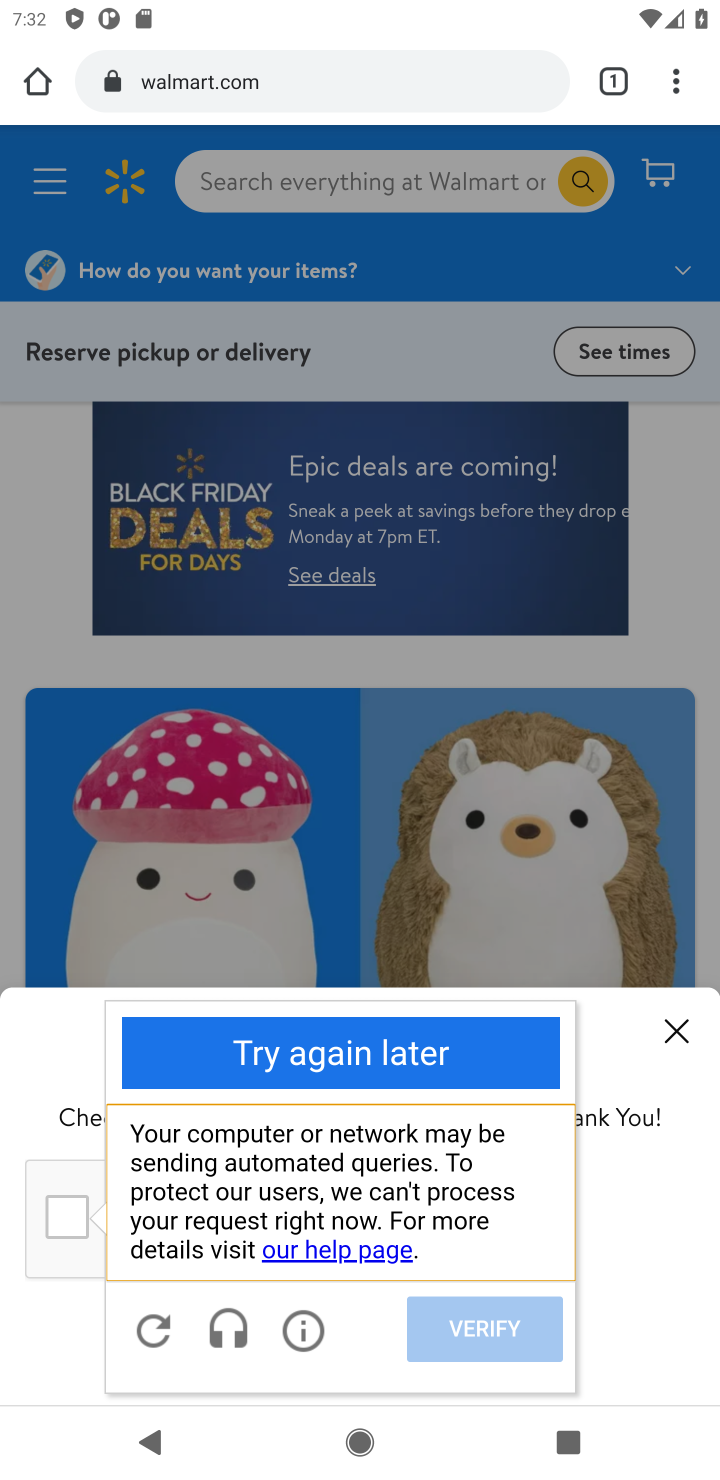
Step 30: click (668, 909)
Your task to perform on an android device: Search for "razer nari" on walmart.com, select the first entry, add it to the cart, then select checkout. Image 31: 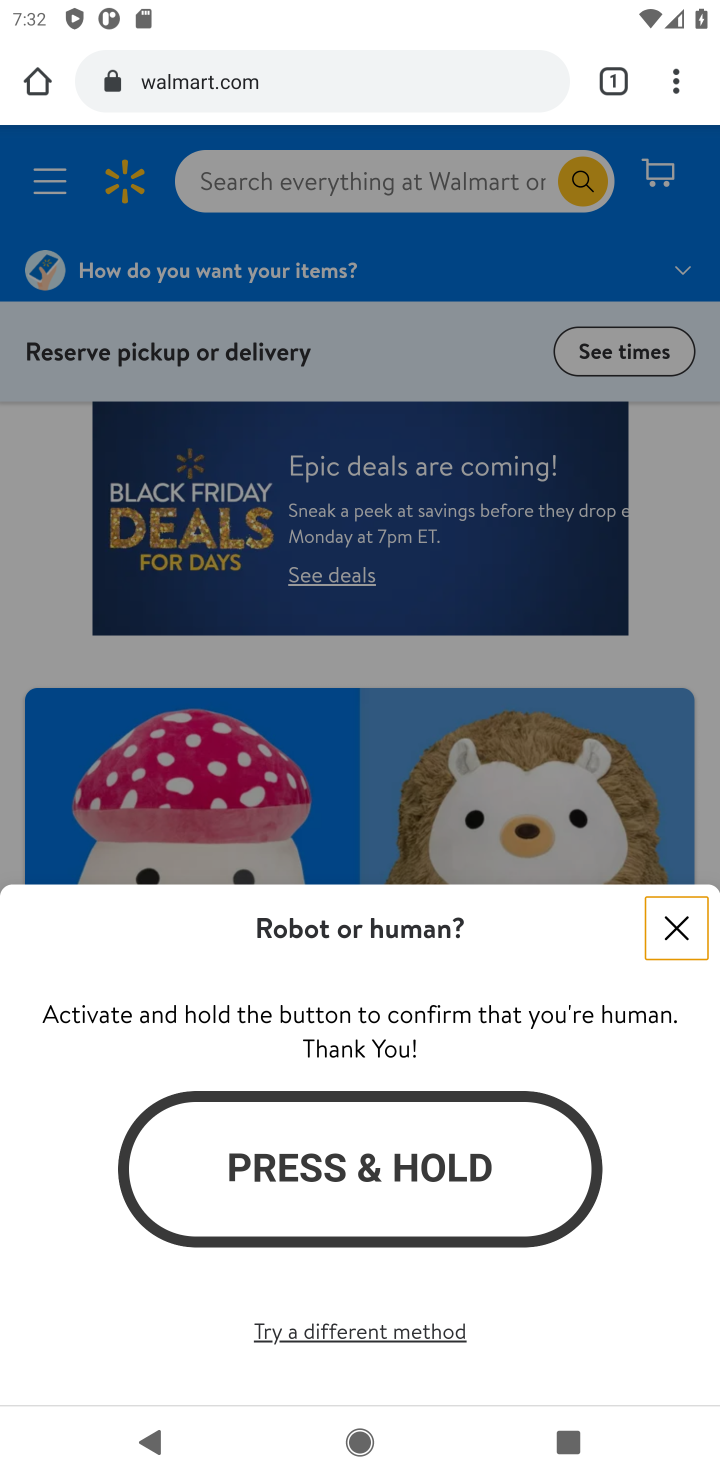
Step 31: click (353, 179)
Your task to perform on an android device: Search for "razer nari" on walmart.com, select the first entry, add it to the cart, then select checkout. Image 32: 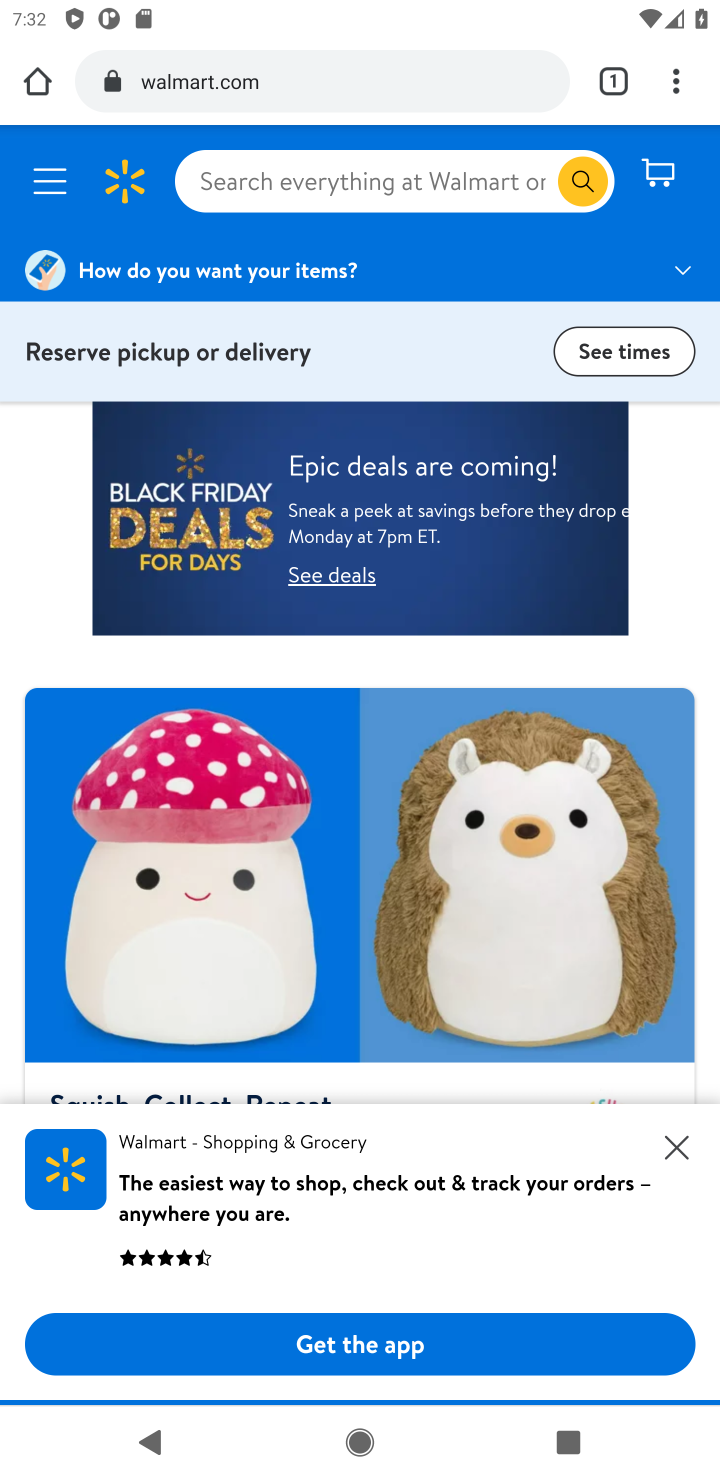
Step 32: click (690, 939)
Your task to perform on an android device: Search for "razer nari" on walmart.com, select the first entry, add it to the cart, then select checkout. Image 33: 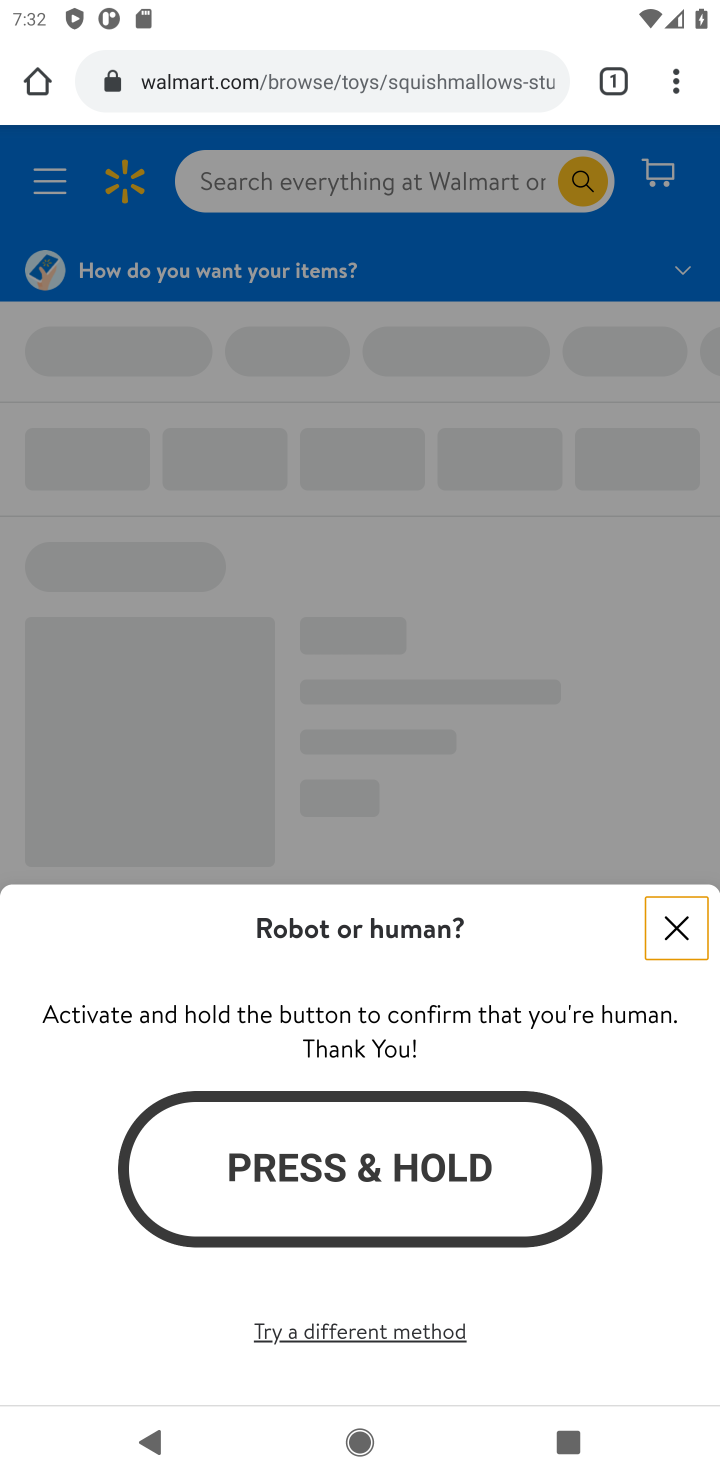
Step 33: click (419, 492)
Your task to perform on an android device: Search for "razer nari" on walmart.com, select the first entry, add it to the cart, then select checkout. Image 34: 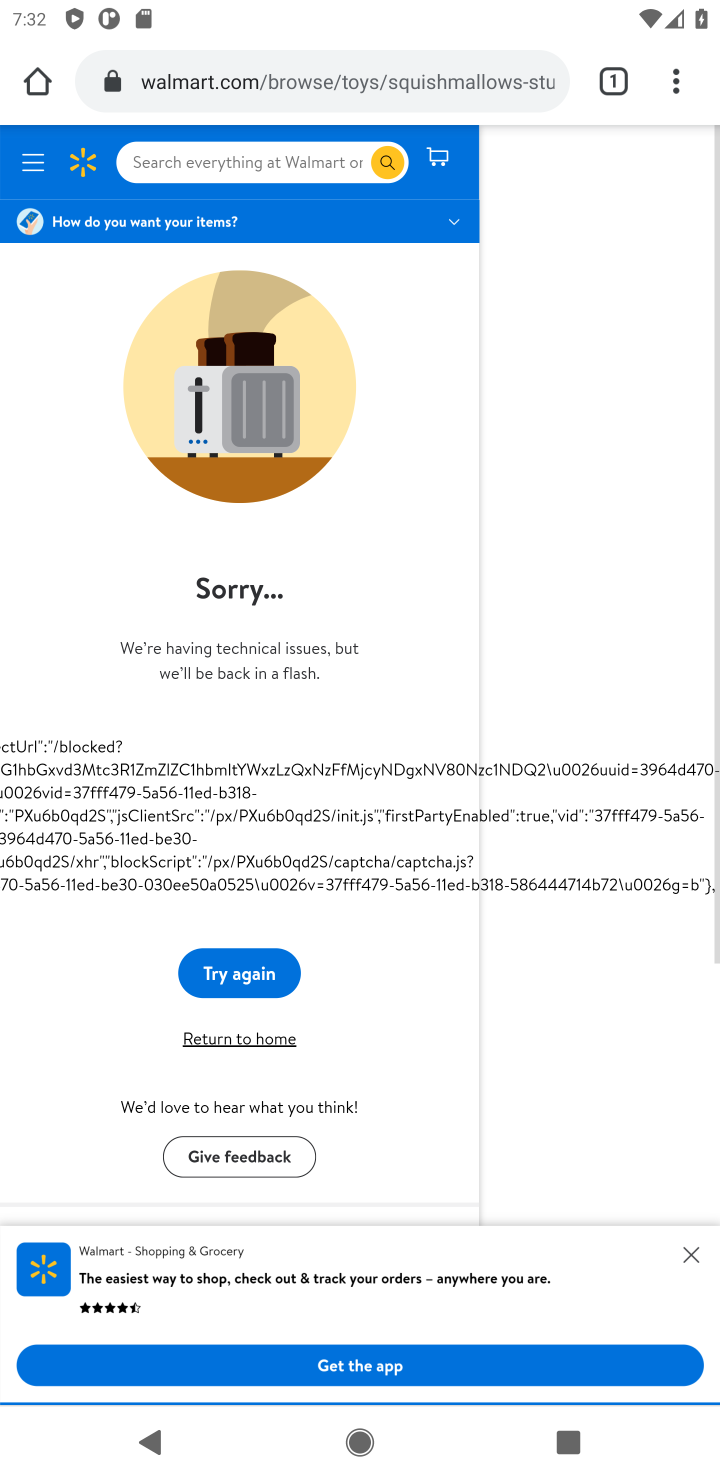
Step 34: click (381, 191)
Your task to perform on an android device: Search for "razer nari" on walmart.com, select the first entry, add it to the cart, then select checkout. Image 35: 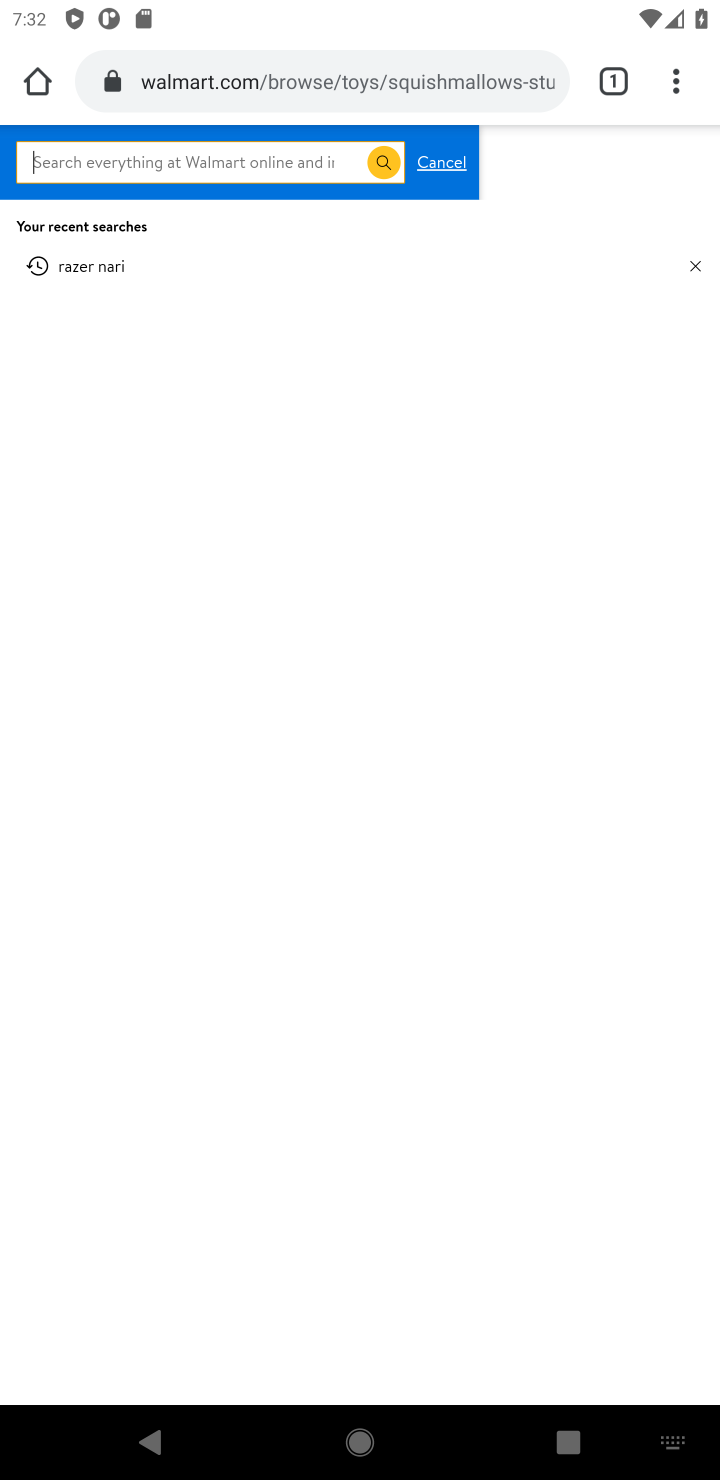
Step 35: task complete